Your task to perform on an android device: Show the shopping cart on ebay.com. Search for razer naga on ebay.com, select the first entry, add it to the cart, then select checkout. Image 0: 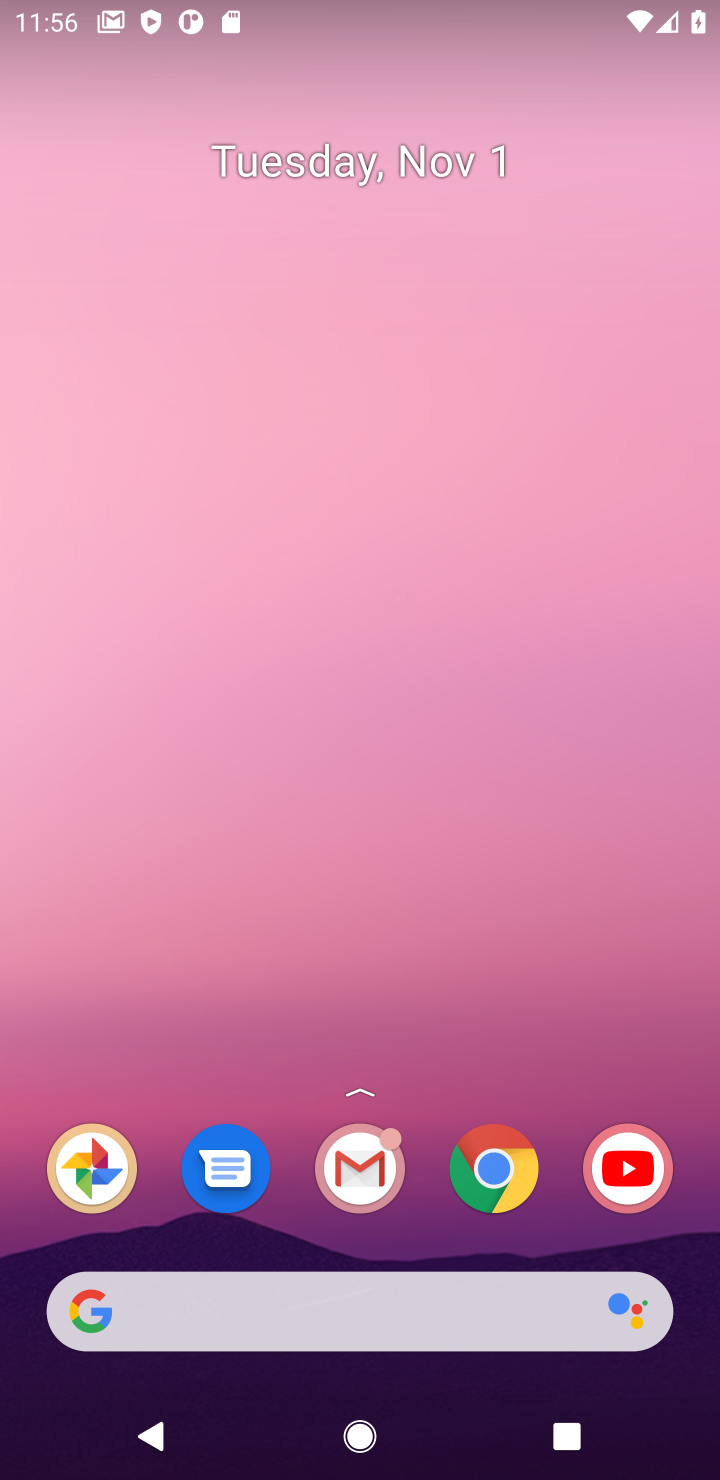
Step 0: click (466, 1159)
Your task to perform on an android device: Show the shopping cart on ebay.com. Search for razer naga on ebay.com, select the first entry, add it to the cart, then select checkout. Image 1: 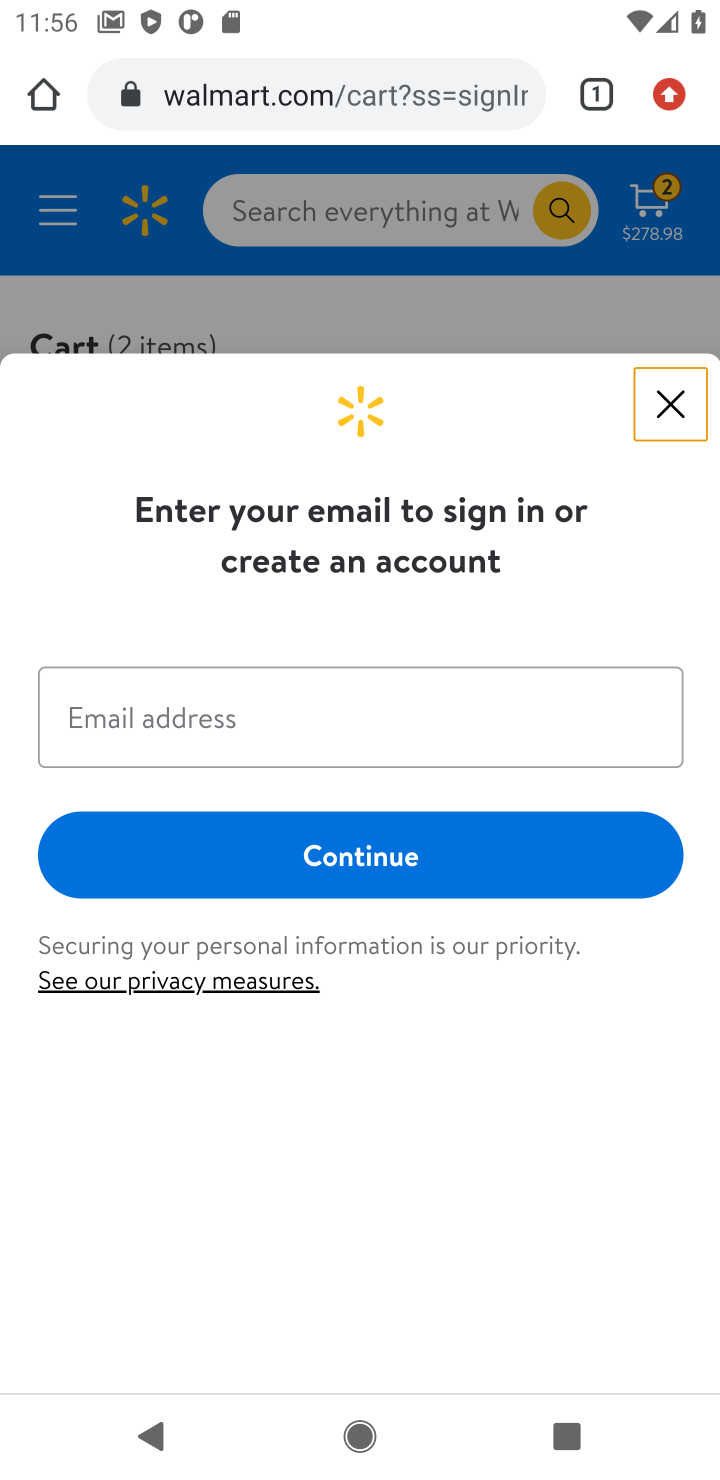
Step 1: click (311, 77)
Your task to perform on an android device: Show the shopping cart on ebay.com. Search for razer naga on ebay.com, select the first entry, add it to the cart, then select checkout. Image 2: 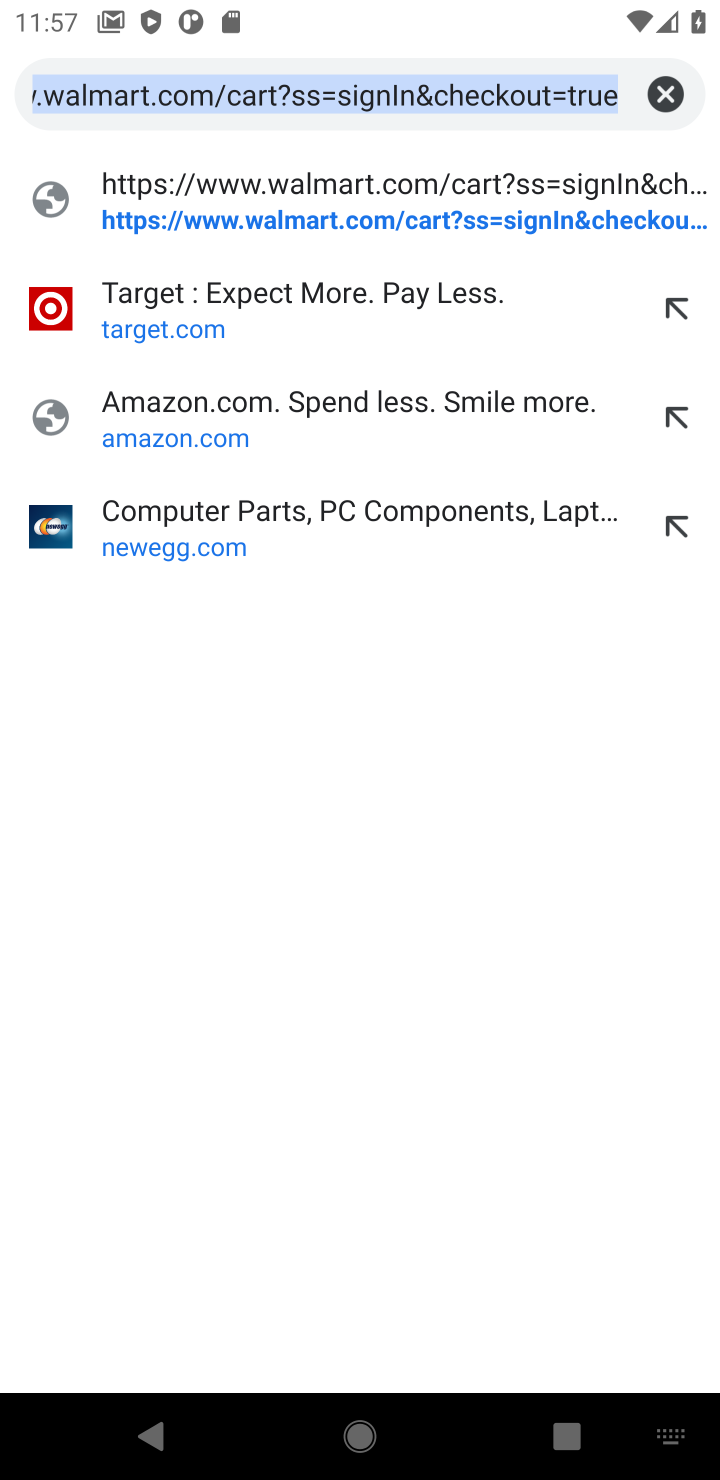
Step 2: click (682, 98)
Your task to perform on an android device: Show the shopping cart on ebay.com. Search for razer naga on ebay.com, select the first entry, add it to the cart, then select checkout. Image 3: 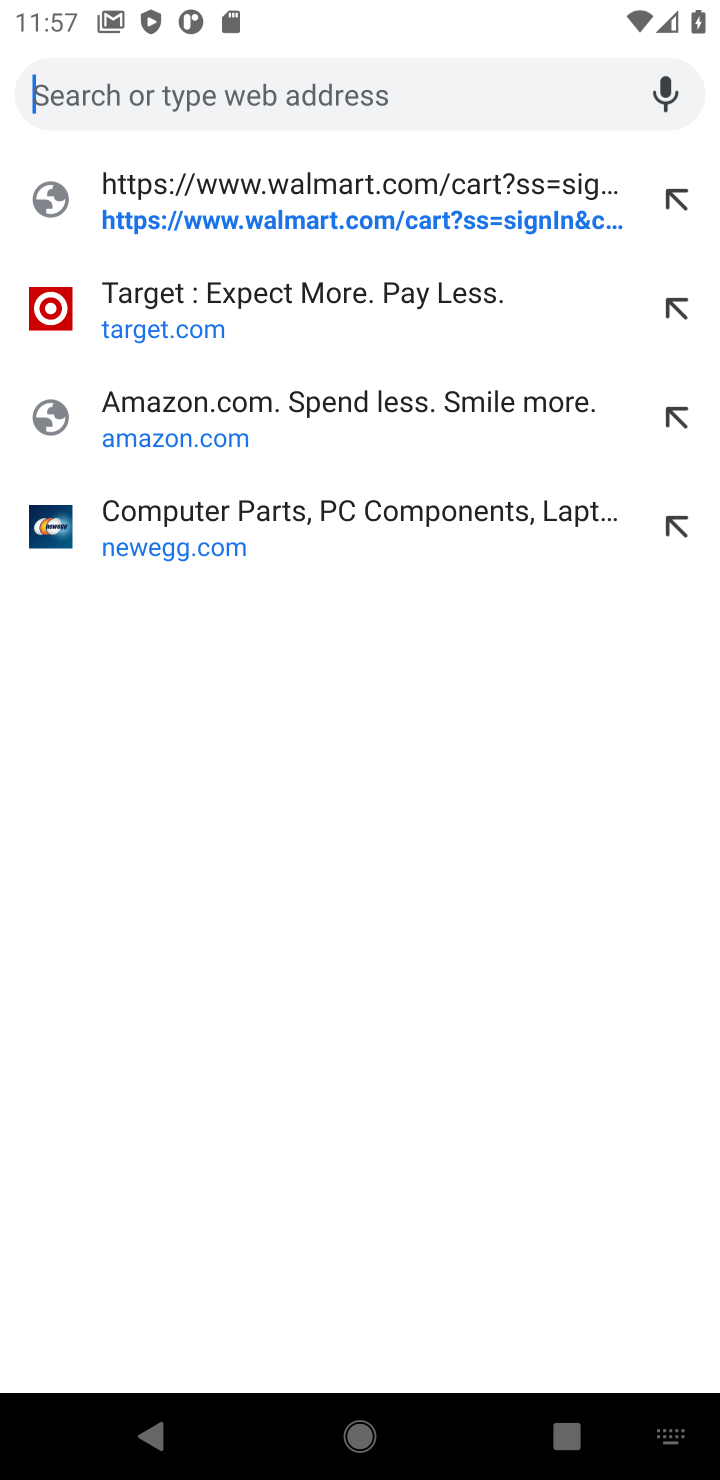
Step 3: press enter
Your task to perform on an android device: Show the shopping cart on ebay.com. Search for razer naga on ebay.com, select the first entry, add it to the cart, then select checkout. Image 4: 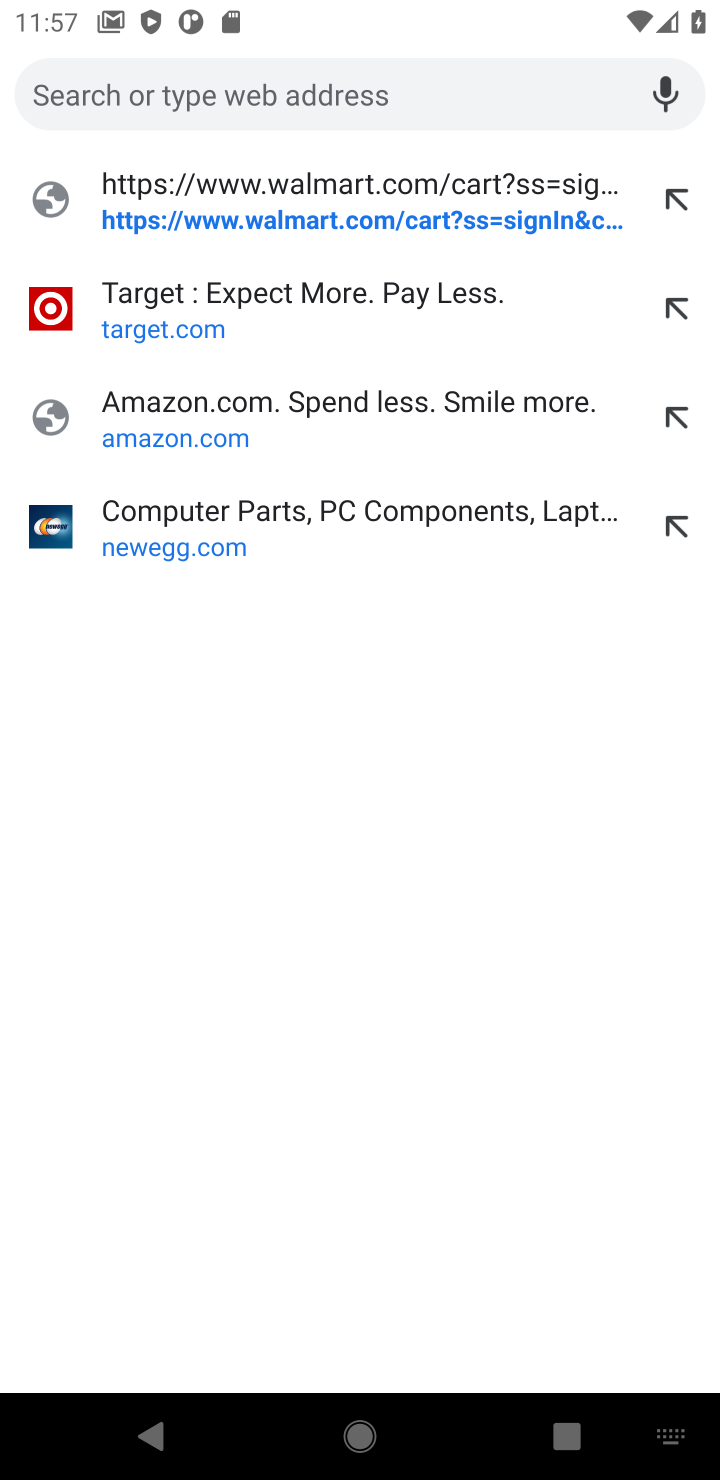
Step 4: type "ebay.com"
Your task to perform on an android device: Show the shopping cart on ebay.com. Search for razer naga on ebay.com, select the first entry, add it to the cart, then select checkout. Image 5: 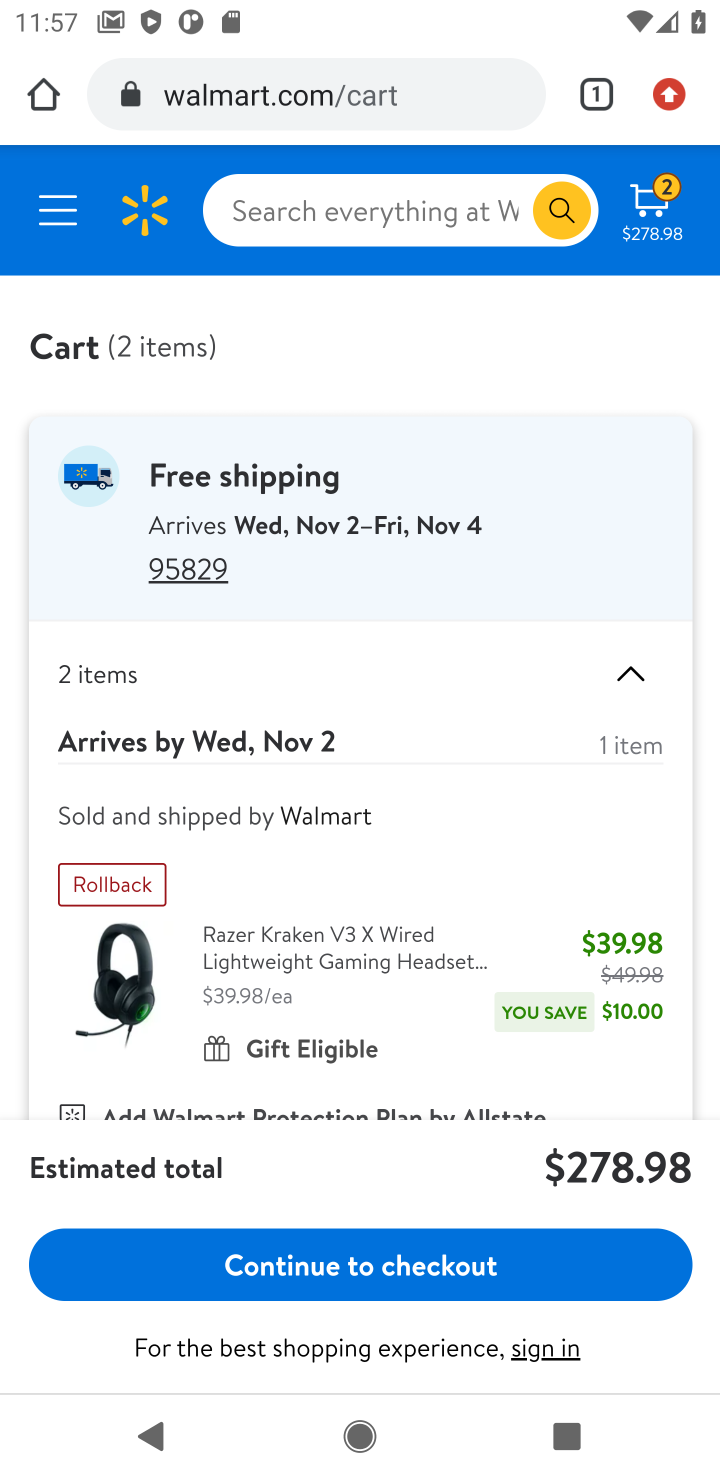
Step 5: click (416, 91)
Your task to perform on an android device: Show the shopping cart on ebay.com. Search for razer naga on ebay.com, select the first entry, add it to the cart, then select checkout. Image 6: 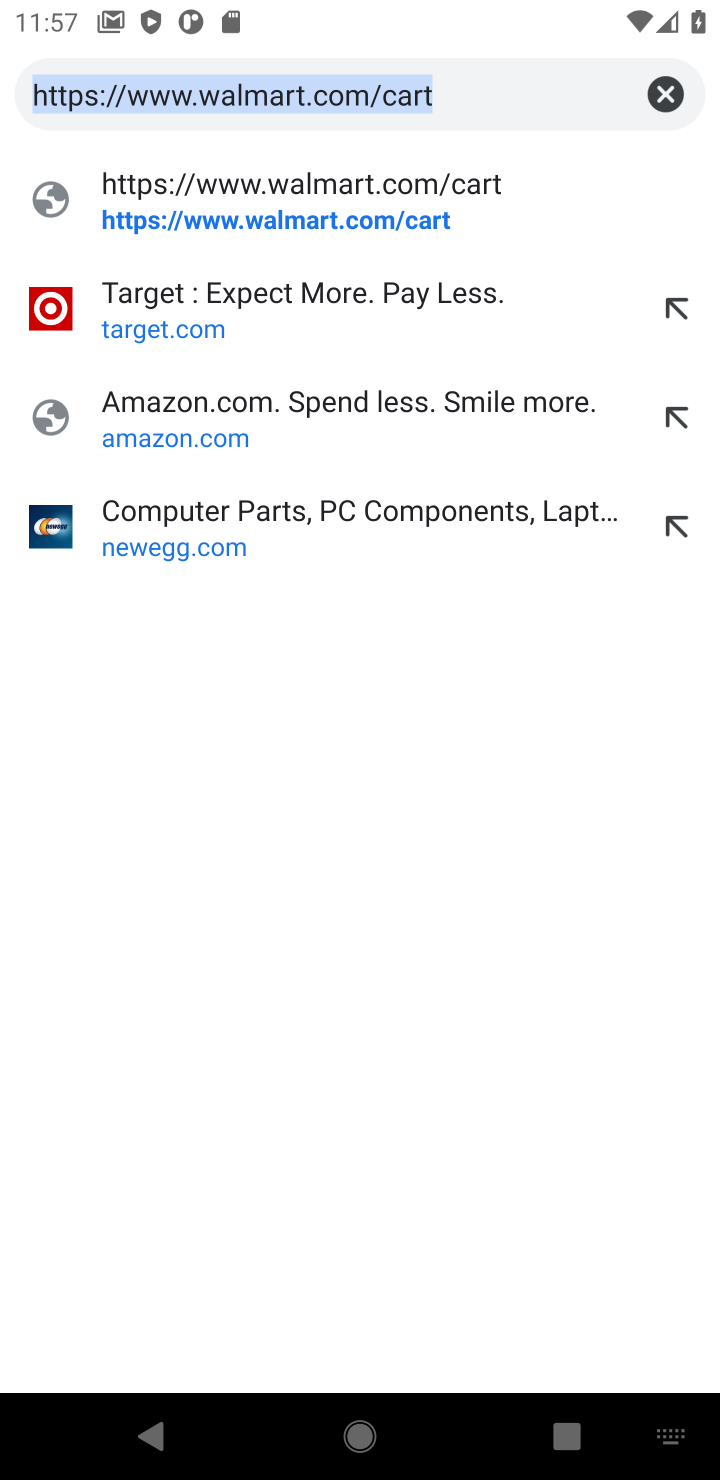
Step 6: click (664, 91)
Your task to perform on an android device: Show the shopping cart on ebay.com. Search for razer naga on ebay.com, select the first entry, add it to the cart, then select checkout. Image 7: 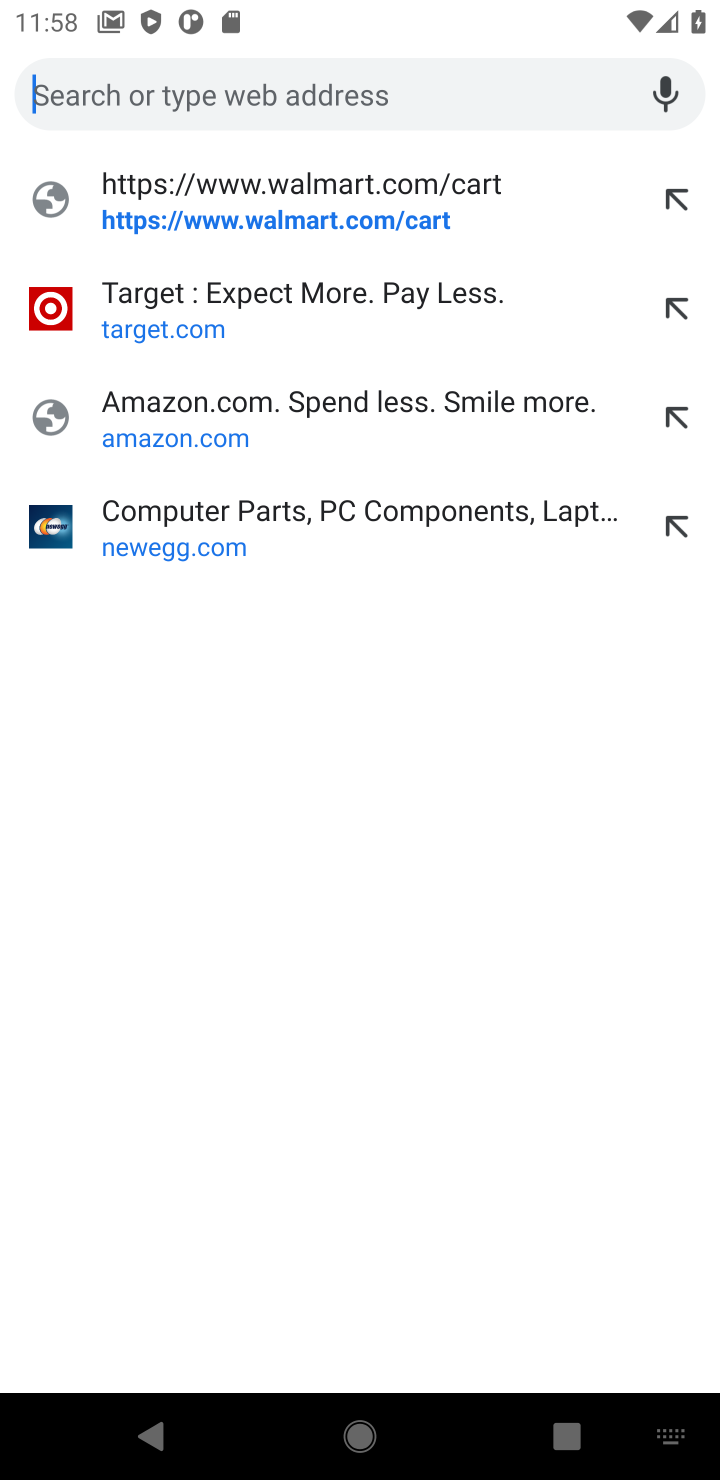
Step 7: press enter
Your task to perform on an android device: Show the shopping cart on ebay.com. Search for razer naga on ebay.com, select the first entry, add it to the cart, then select checkout. Image 8: 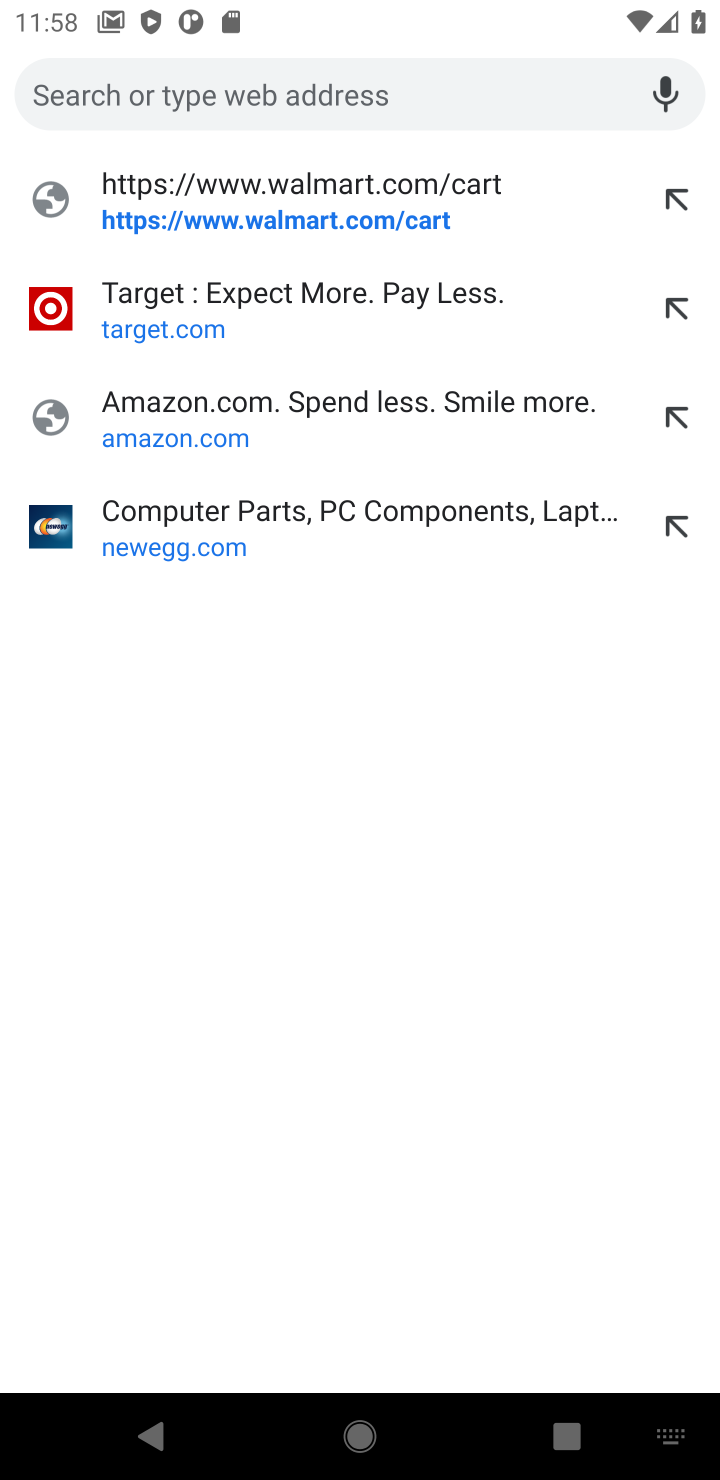
Step 8: type "ebay.com"
Your task to perform on an android device: Show the shopping cart on ebay.com. Search for razer naga on ebay.com, select the first entry, add it to the cart, then select checkout. Image 9: 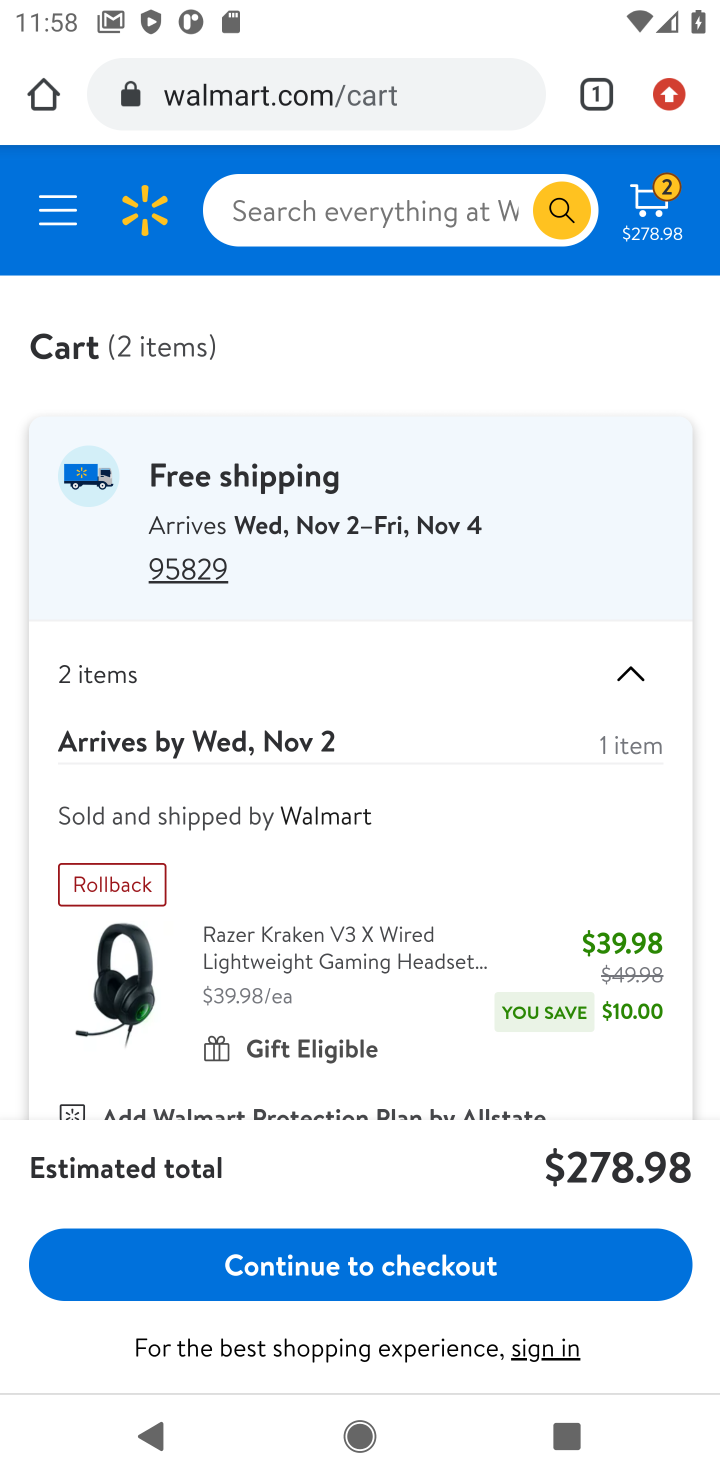
Step 9: click (235, 85)
Your task to perform on an android device: Show the shopping cart on ebay.com. Search for razer naga on ebay.com, select the first entry, add it to the cart, then select checkout. Image 10: 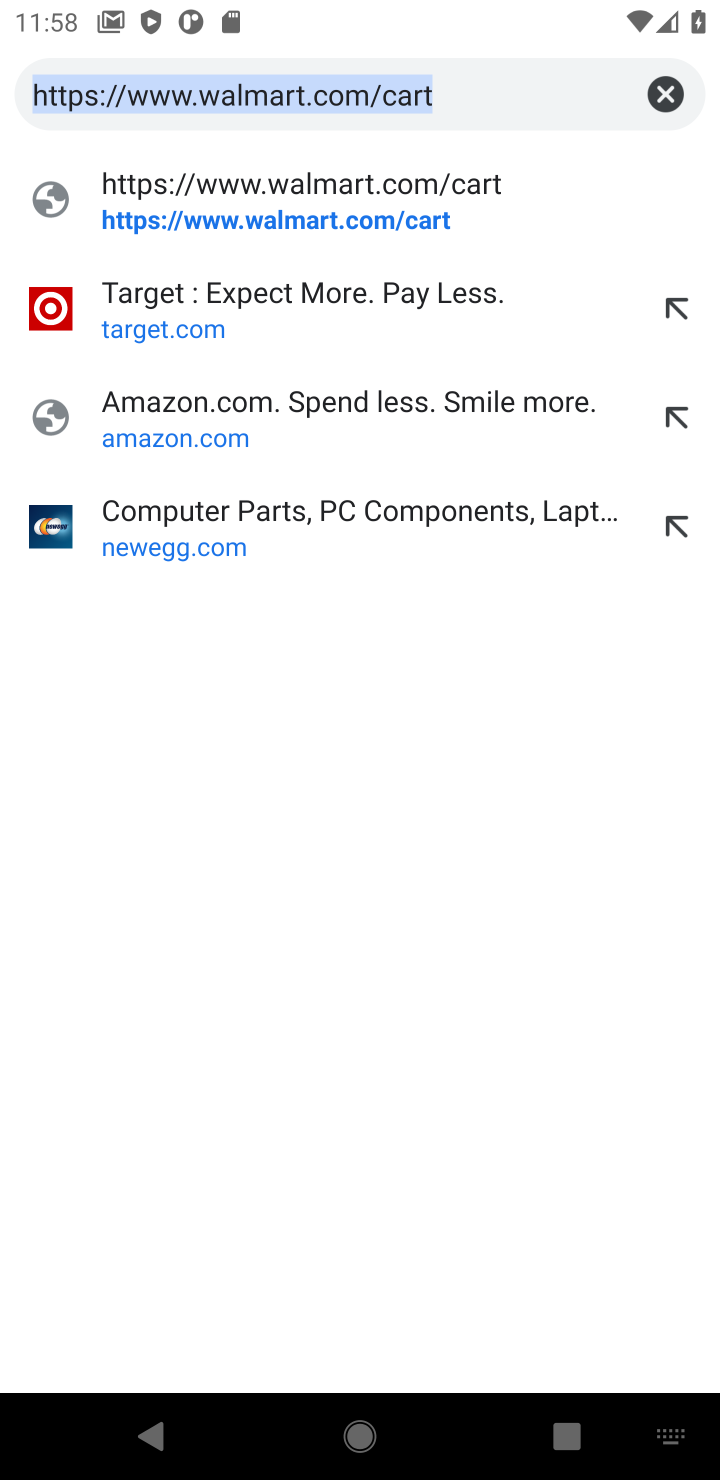
Step 10: click (672, 79)
Your task to perform on an android device: Show the shopping cart on ebay.com. Search for razer naga on ebay.com, select the first entry, add it to the cart, then select checkout. Image 11: 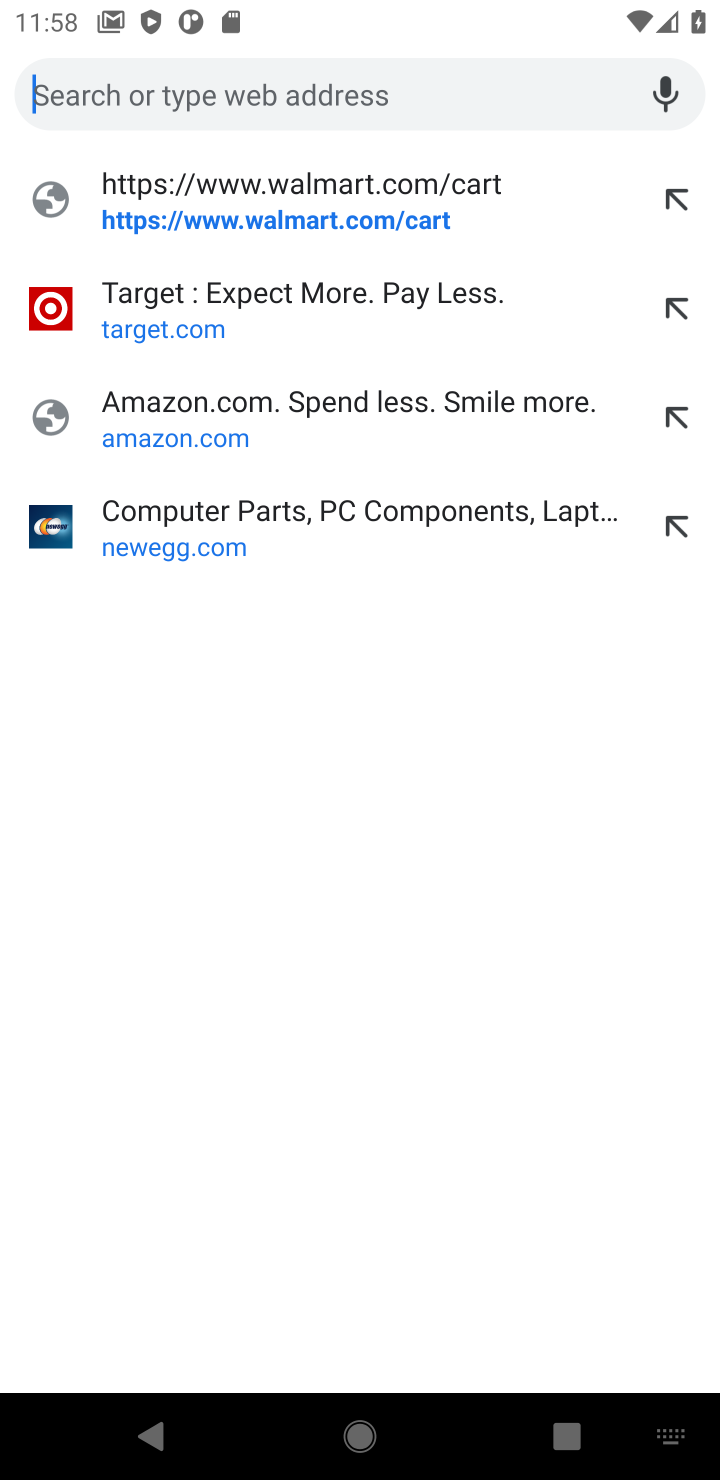
Step 11: press enter
Your task to perform on an android device: Show the shopping cart on ebay.com. Search for razer naga on ebay.com, select the first entry, add it to the cart, then select checkout. Image 12: 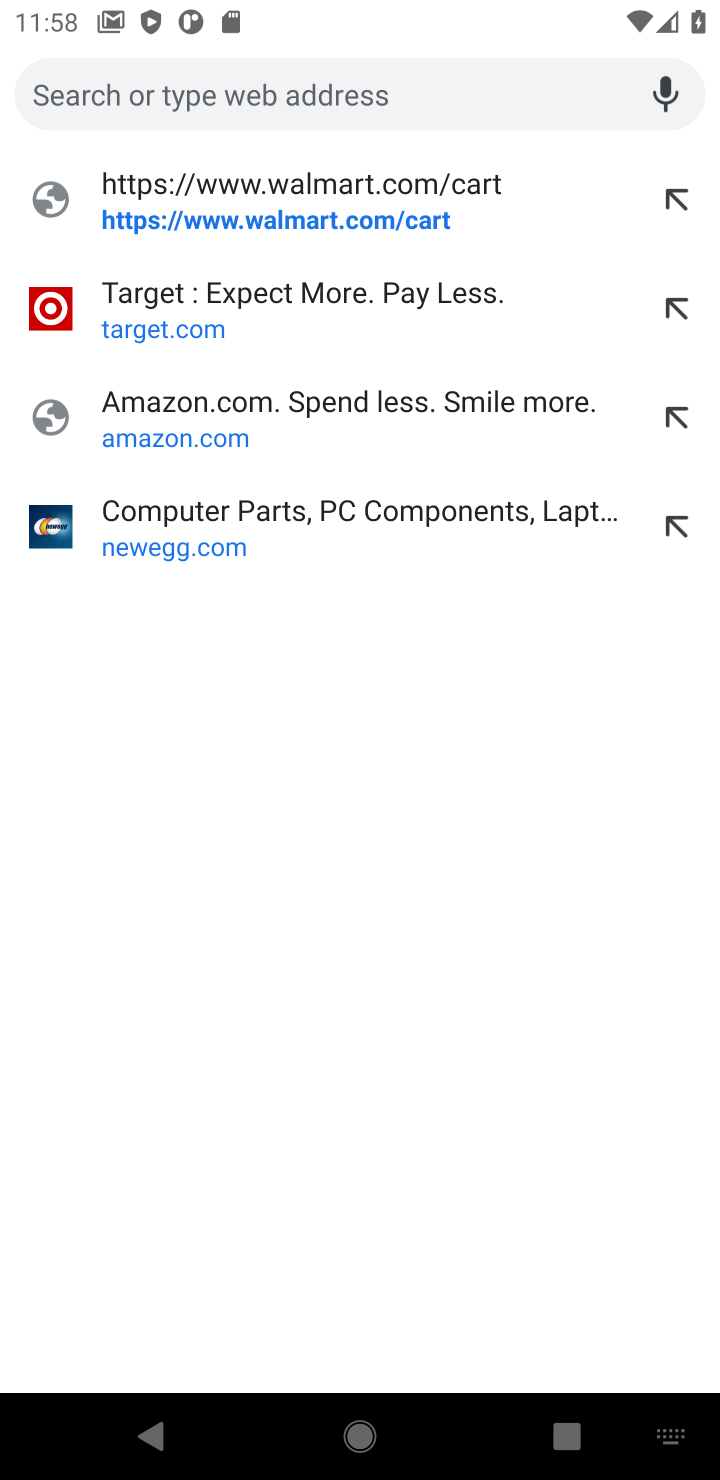
Step 12: type "ebay.com"
Your task to perform on an android device: Show the shopping cart on ebay.com. Search for razer naga on ebay.com, select the first entry, add it to the cart, then select checkout. Image 13: 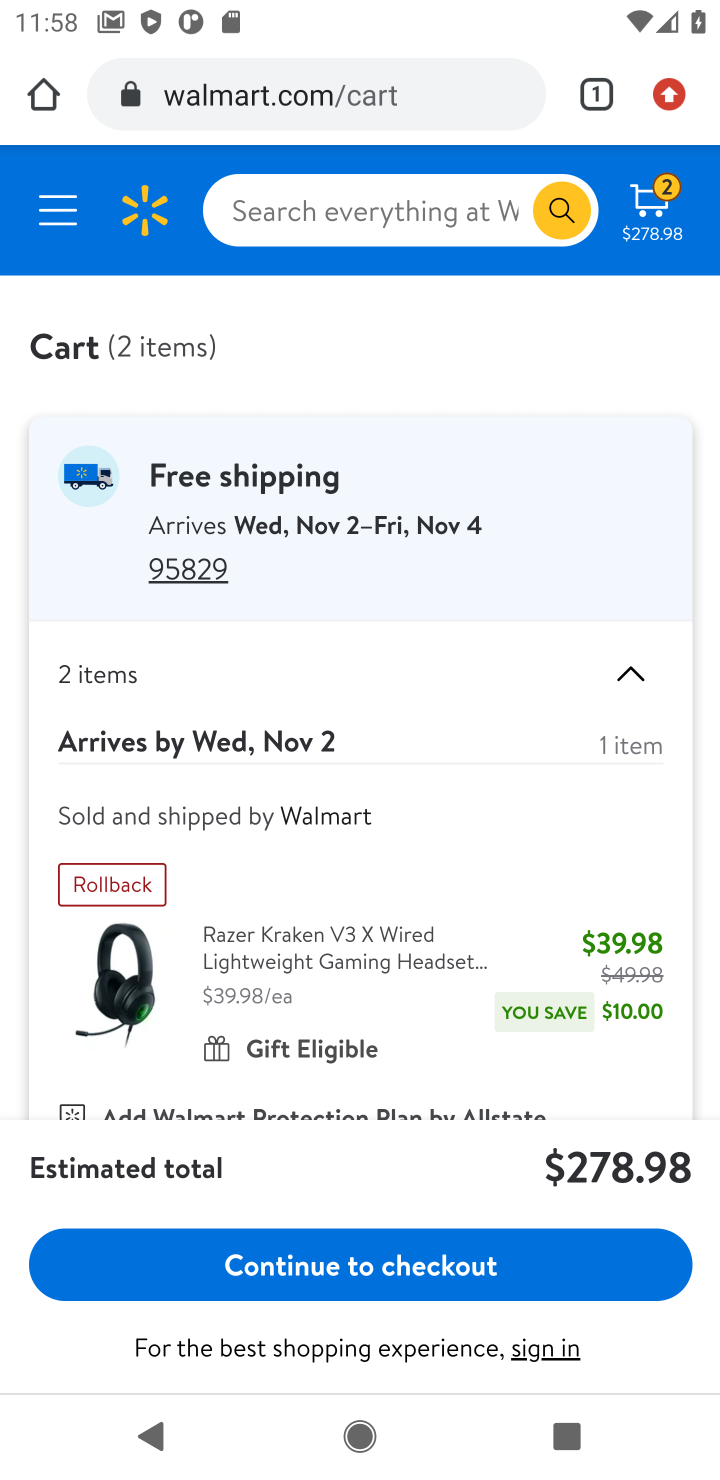
Step 13: click (44, 104)
Your task to perform on an android device: Show the shopping cart on ebay.com. Search for razer naga on ebay.com, select the first entry, add it to the cart, then select checkout. Image 14: 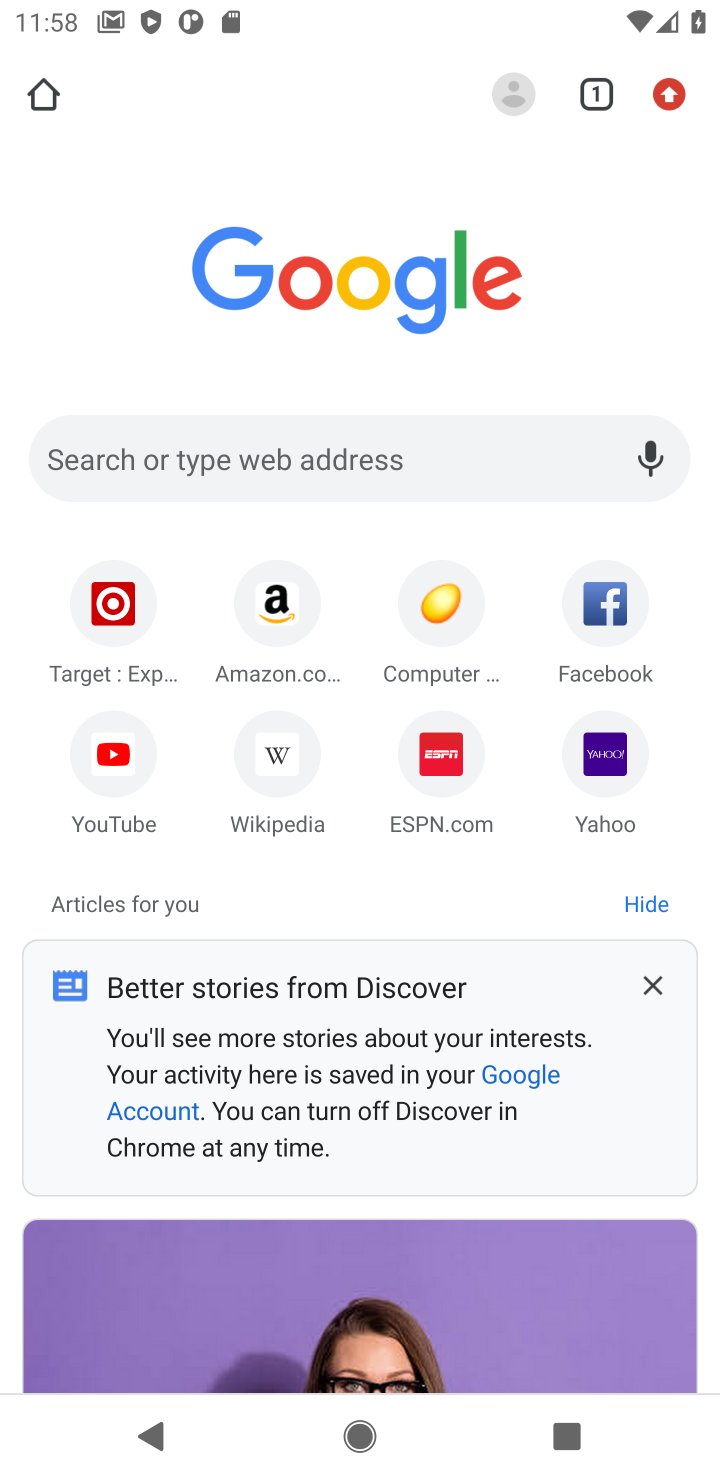
Step 14: click (416, 451)
Your task to perform on an android device: Show the shopping cart on ebay.com. Search for razer naga on ebay.com, select the first entry, add it to the cart, then select checkout. Image 15: 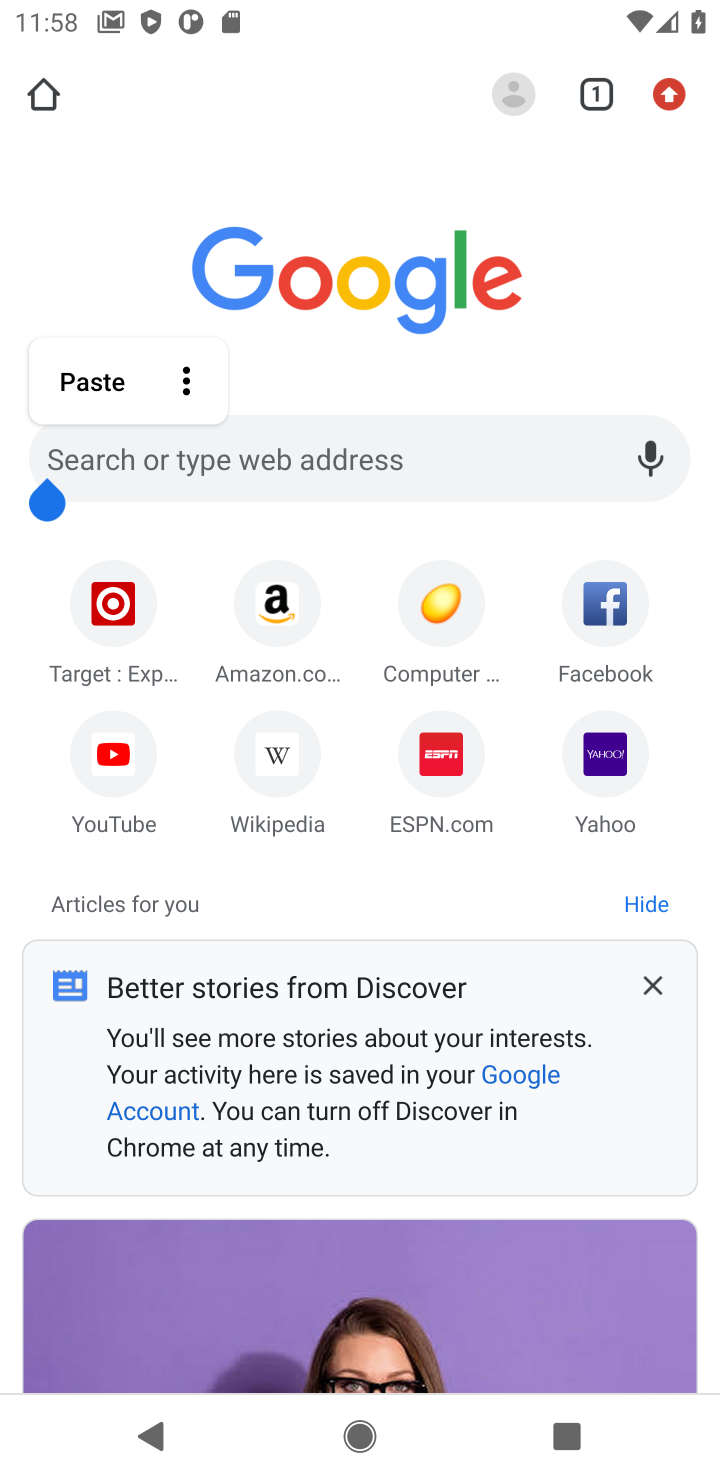
Step 15: press enter
Your task to perform on an android device: Show the shopping cart on ebay.com. Search for razer naga on ebay.com, select the first entry, add it to the cart, then select checkout. Image 16: 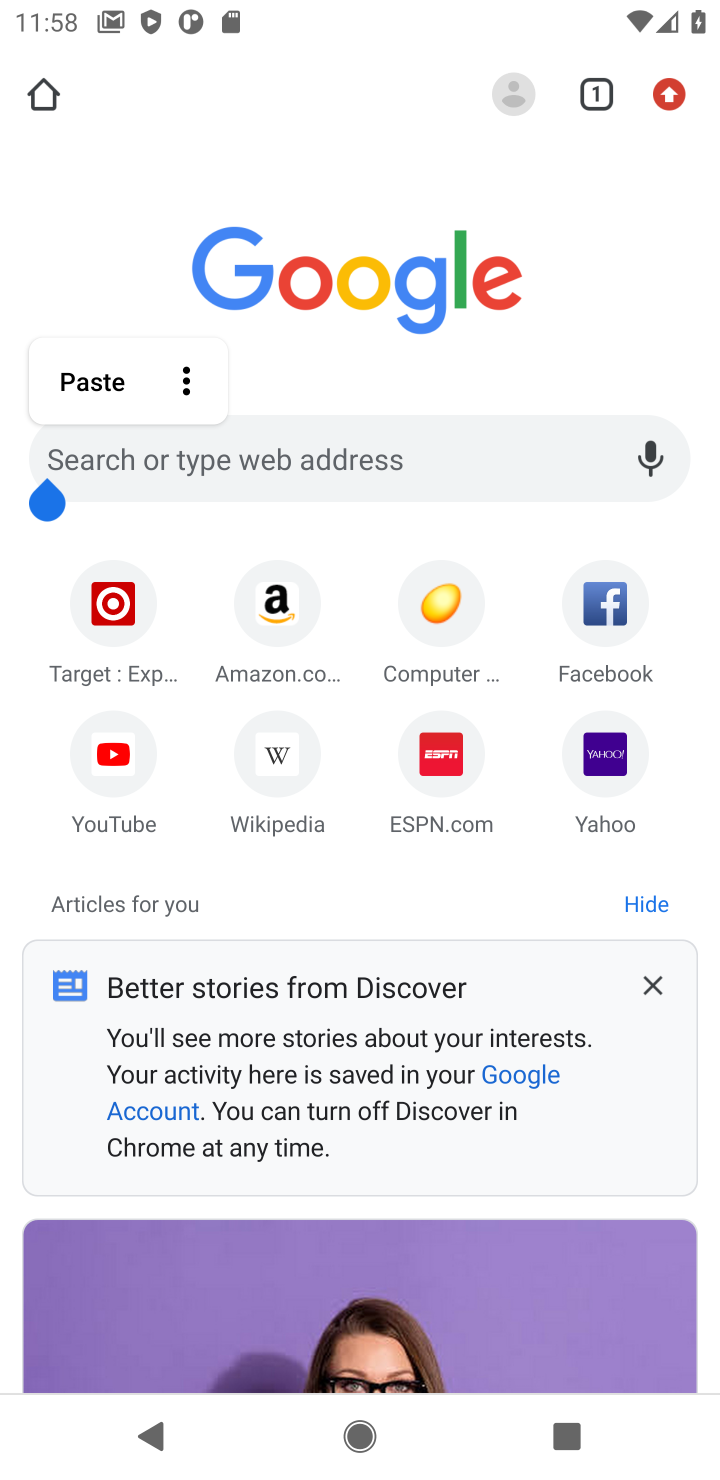
Step 16: type "ebay.com"
Your task to perform on an android device: Show the shopping cart on ebay.com. Search for razer naga on ebay.com, select the first entry, add it to the cart, then select checkout. Image 17: 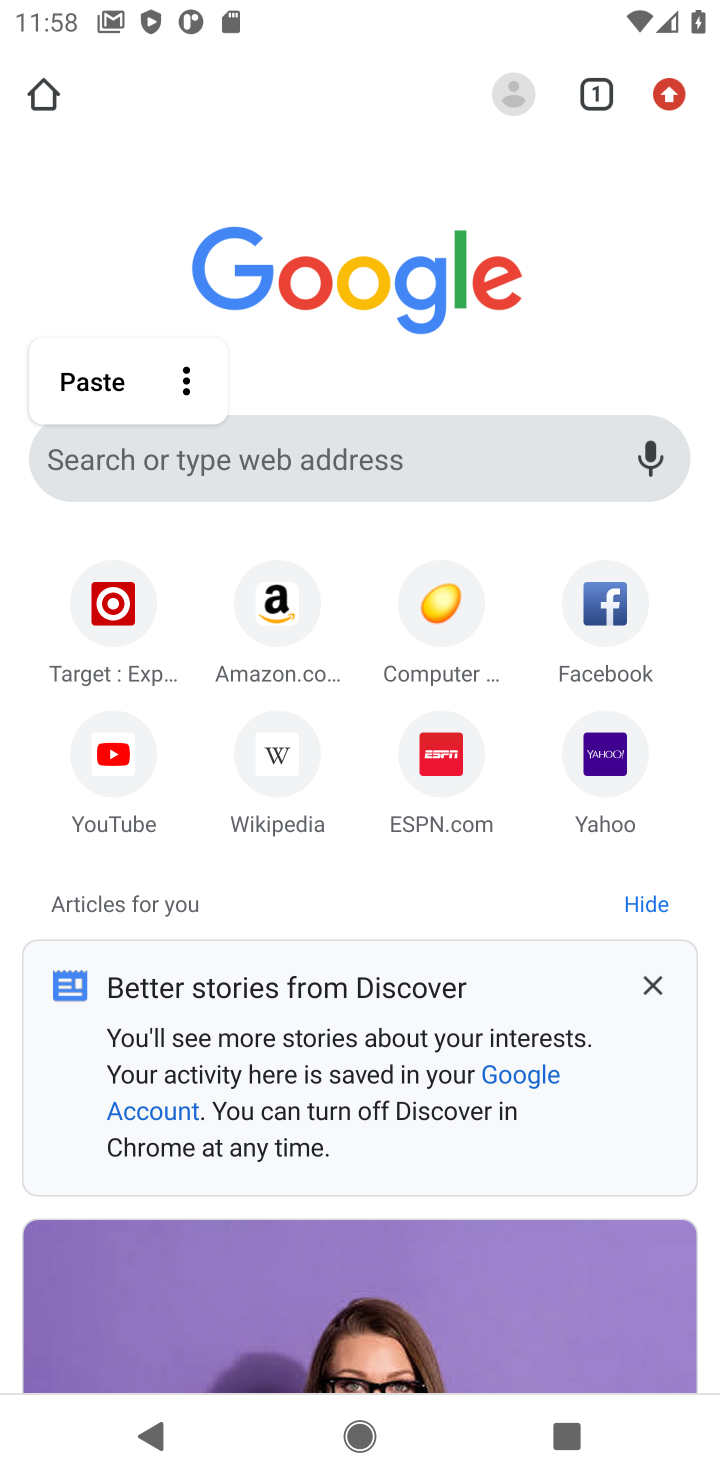
Step 17: click (463, 453)
Your task to perform on an android device: Show the shopping cart on ebay.com. Search for razer naga on ebay.com, select the first entry, add it to the cart, then select checkout. Image 18: 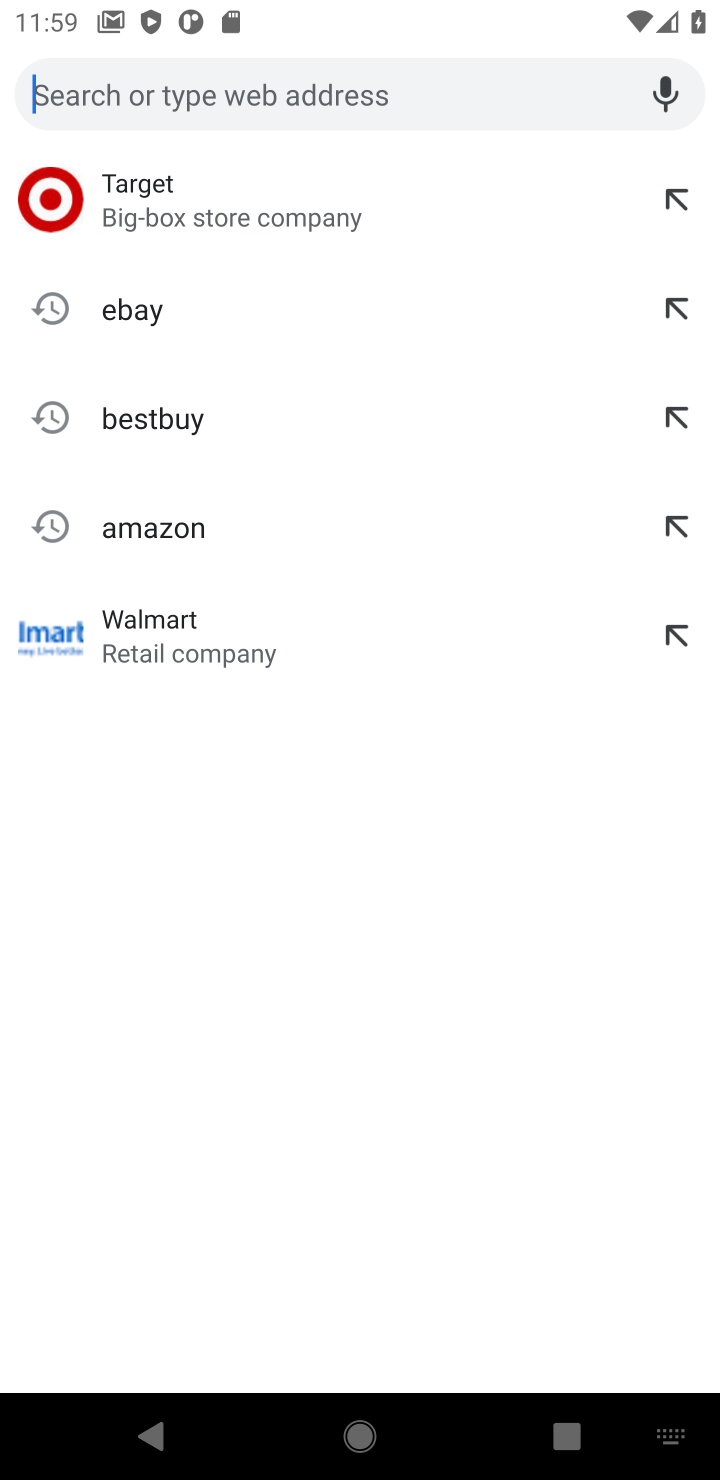
Step 18: type "ebay.com"
Your task to perform on an android device: Show the shopping cart on ebay.com. Search for razer naga on ebay.com, select the first entry, add it to the cart, then select checkout. Image 19: 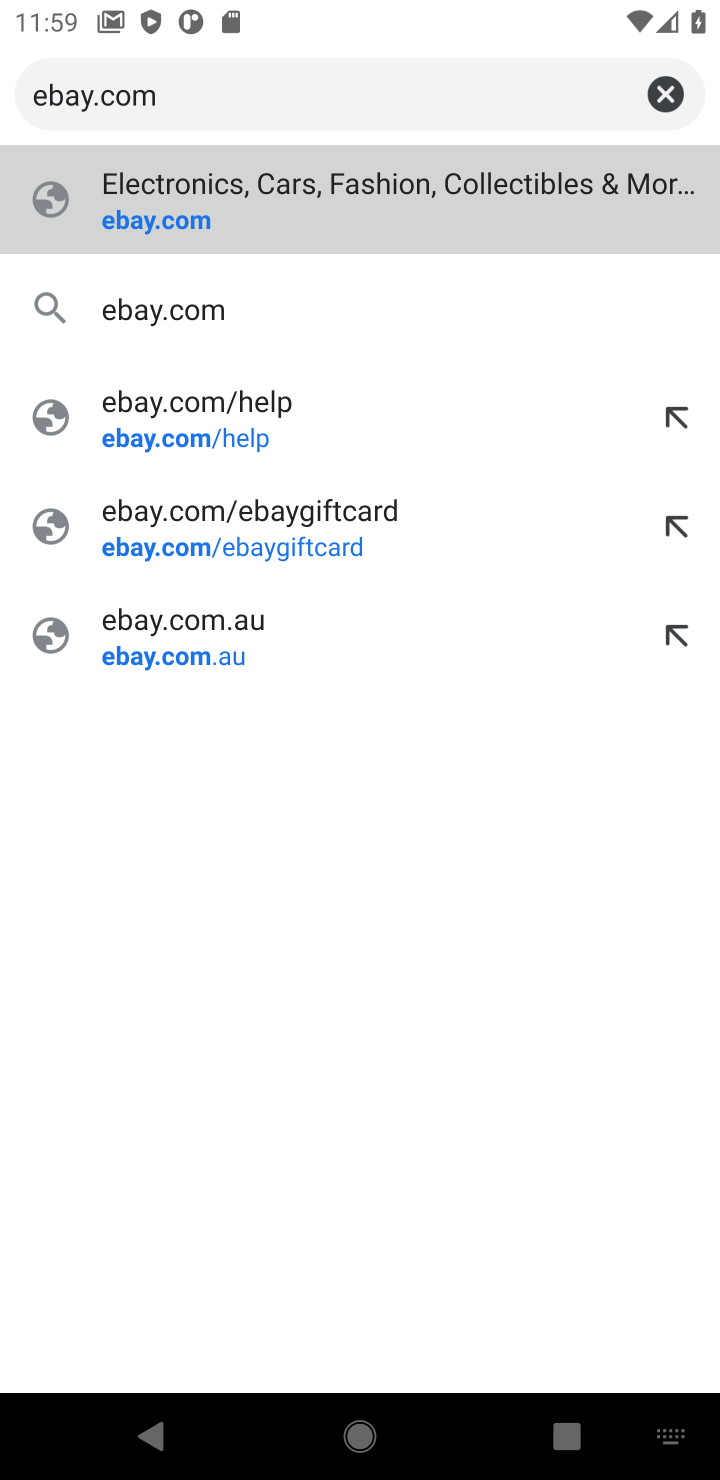
Step 19: press enter
Your task to perform on an android device: Show the shopping cart on ebay.com. Search for razer naga on ebay.com, select the first entry, add it to the cart, then select checkout. Image 20: 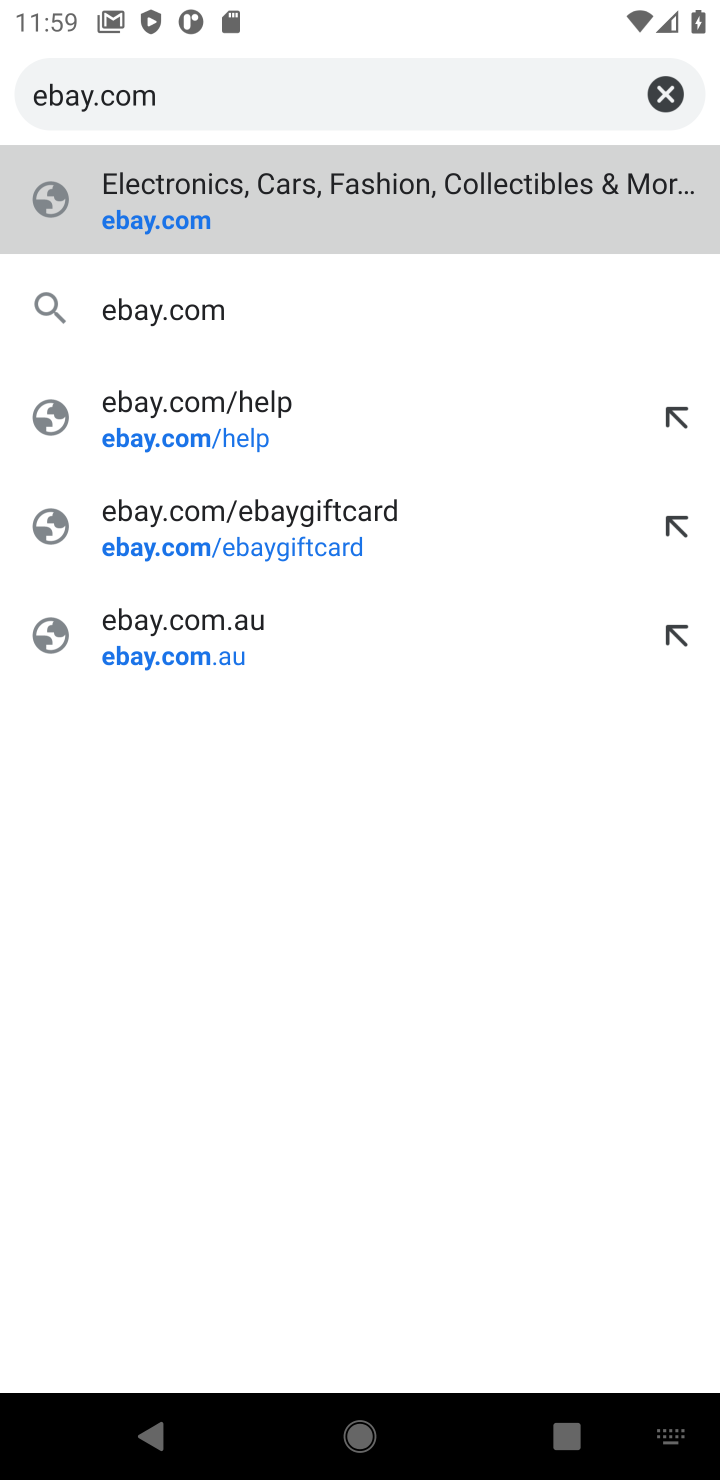
Step 20: click (107, 310)
Your task to perform on an android device: Show the shopping cart on ebay.com. Search for razer naga on ebay.com, select the first entry, add it to the cart, then select checkout. Image 21: 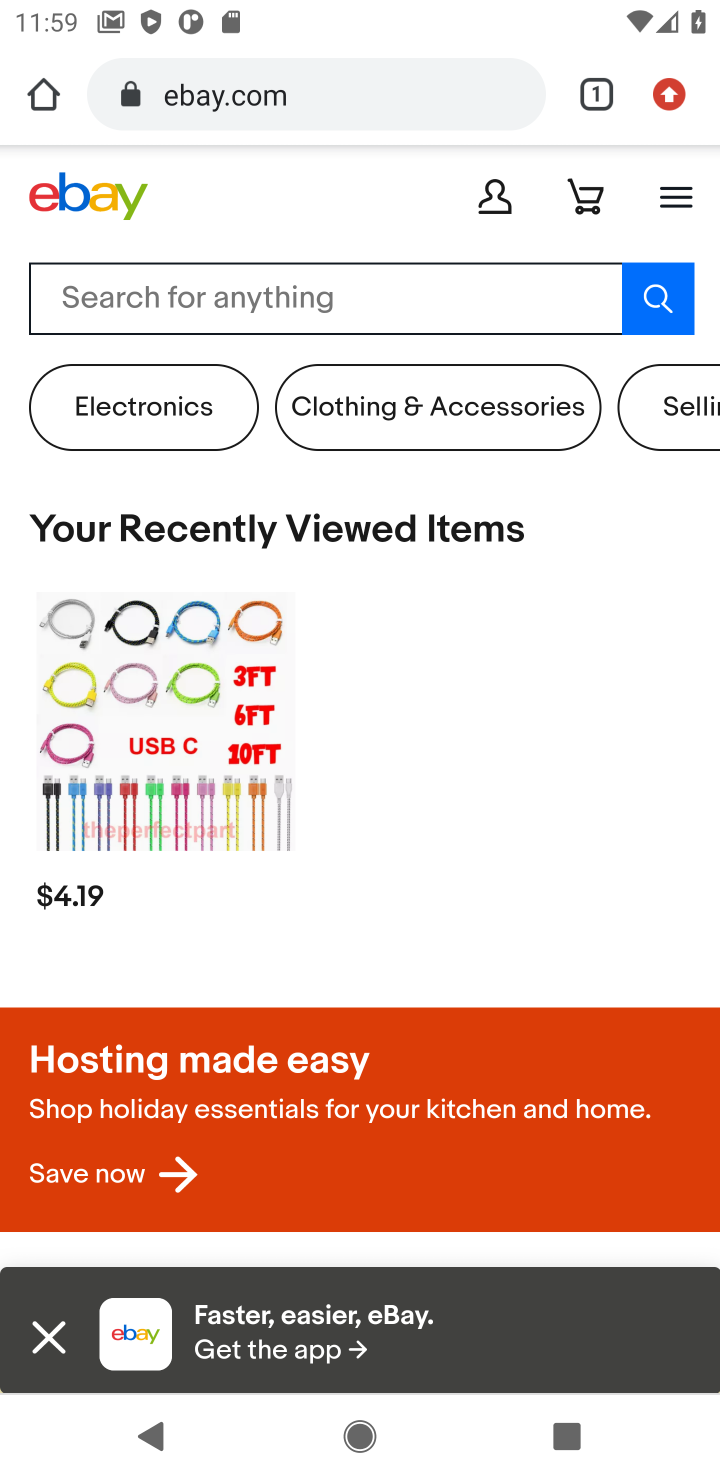
Step 21: click (271, 298)
Your task to perform on an android device: Show the shopping cart on ebay.com. Search for razer naga on ebay.com, select the first entry, add it to the cart, then select checkout. Image 22: 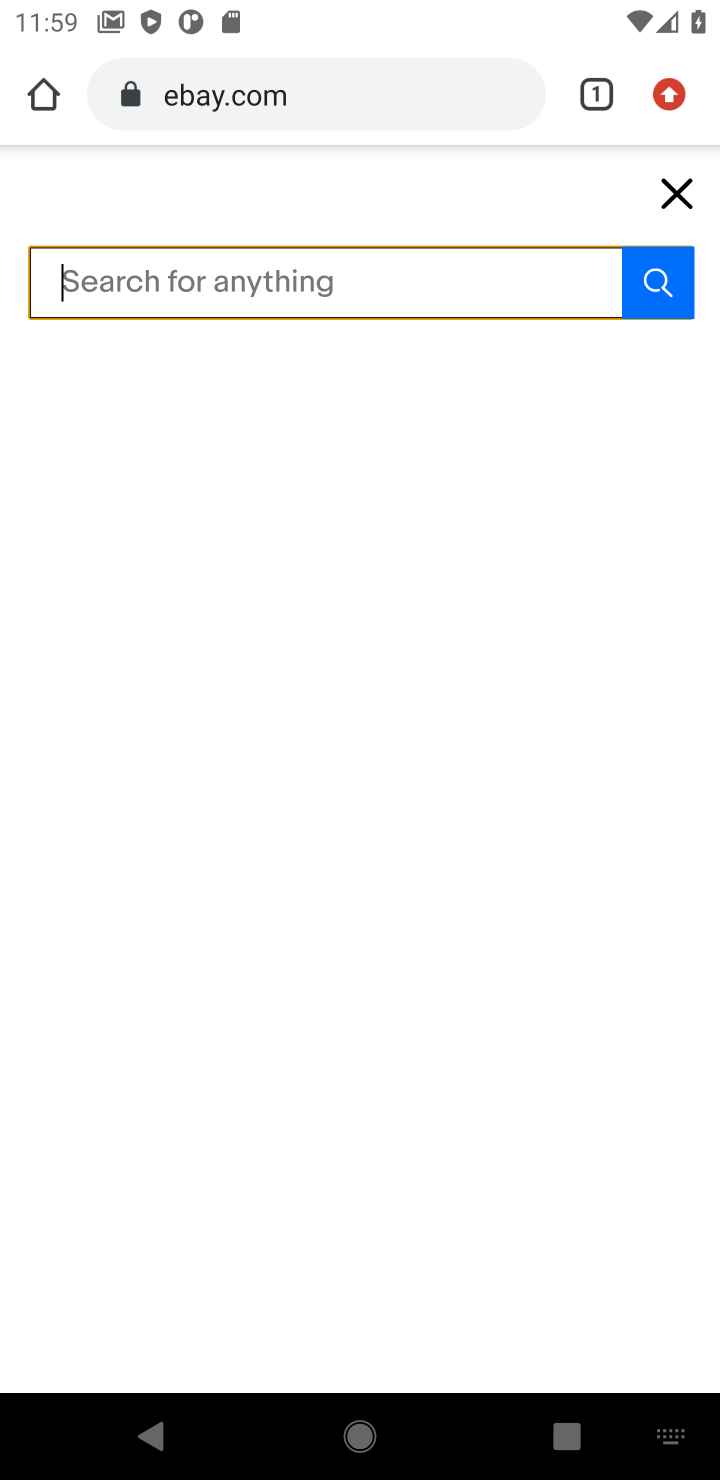
Step 22: press enter
Your task to perform on an android device: Show the shopping cart on ebay.com. Search for razer naga on ebay.com, select the first entry, add it to the cart, then select checkout. Image 23: 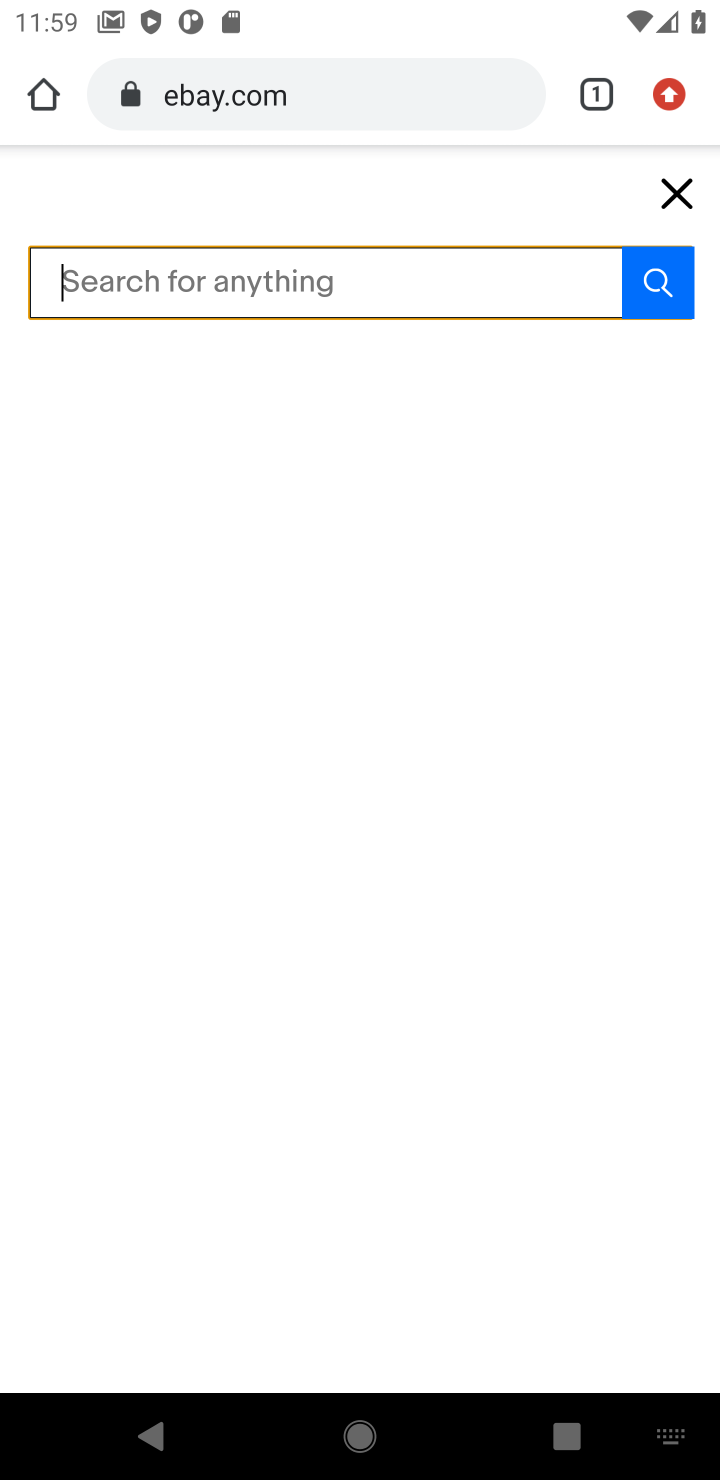
Step 23: type "razer naga"
Your task to perform on an android device: Show the shopping cart on ebay.com. Search for razer naga on ebay.com, select the first entry, add it to the cart, then select checkout. Image 24: 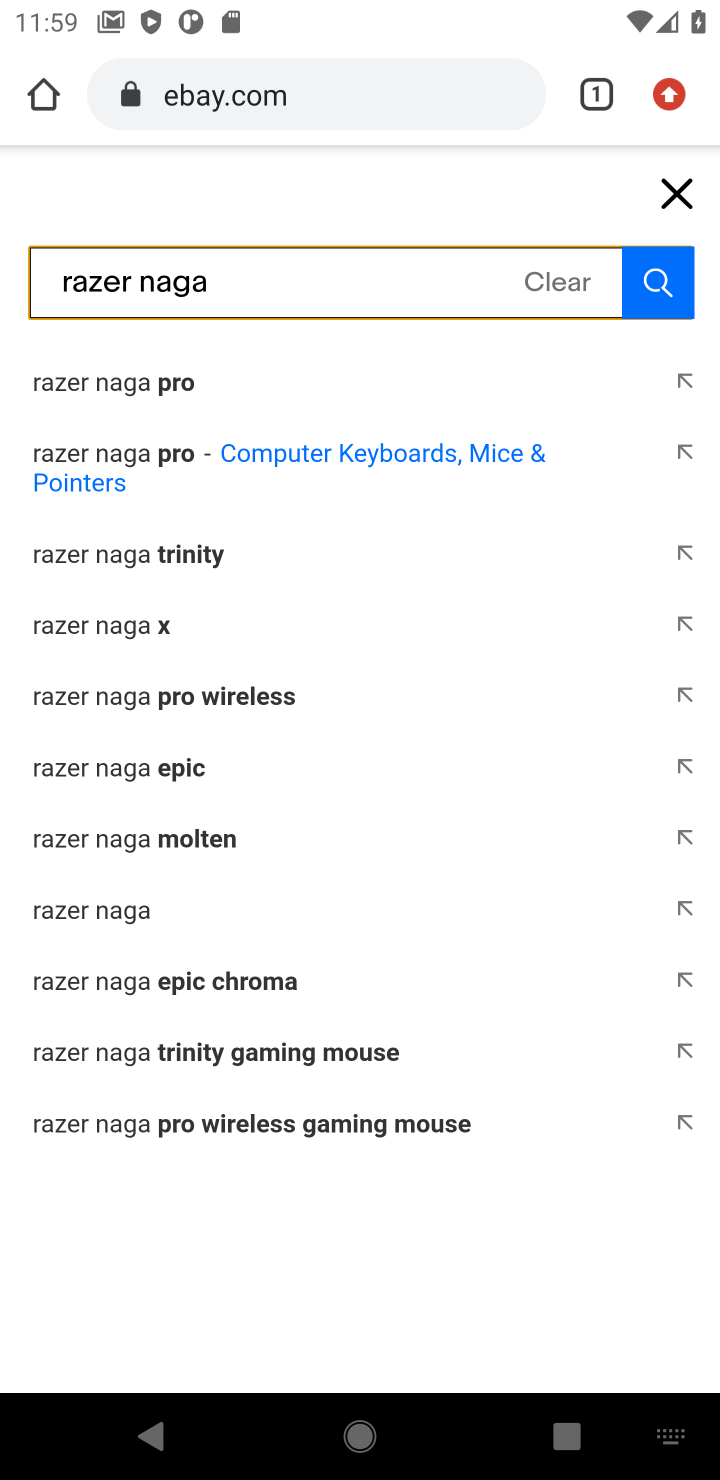
Step 24: click (99, 918)
Your task to perform on an android device: Show the shopping cart on ebay.com. Search for razer naga on ebay.com, select the first entry, add it to the cart, then select checkout. Image 25: 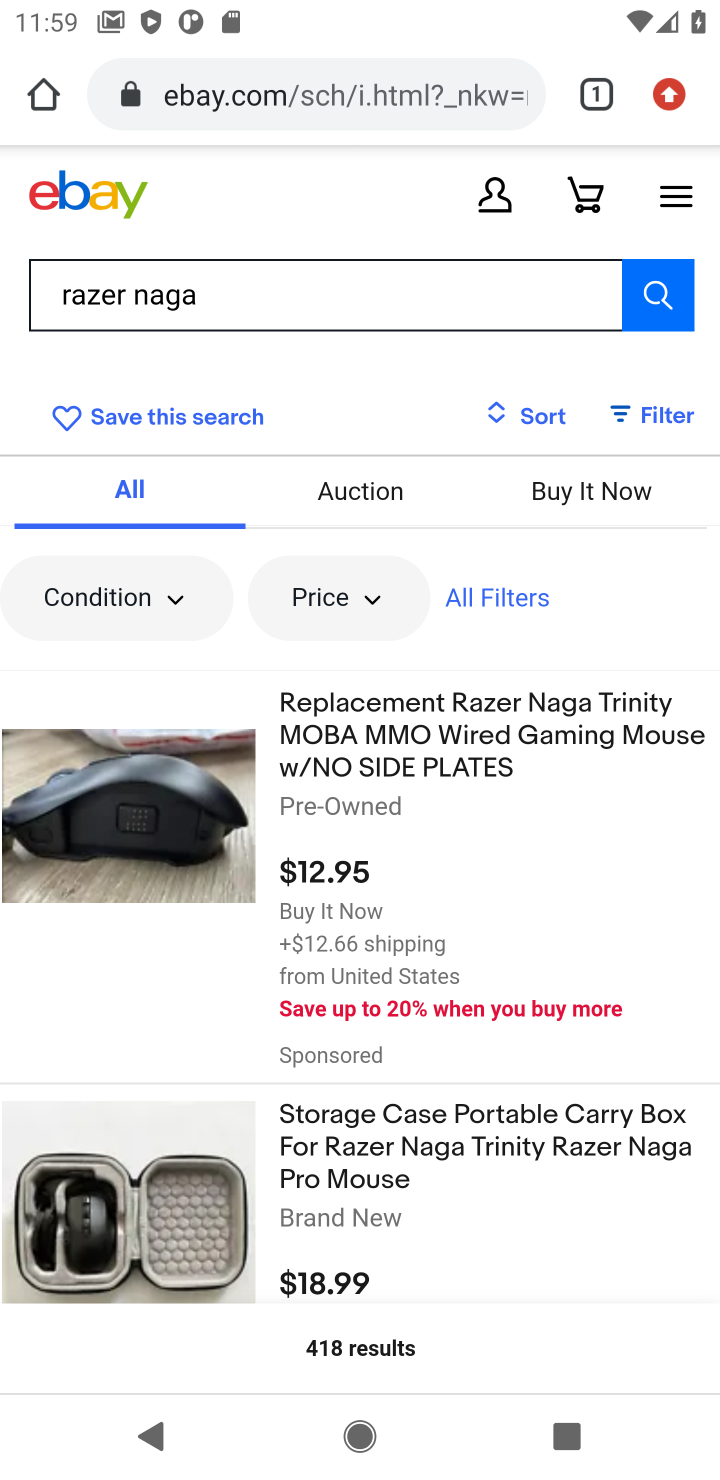
Step 25: click (147, 808)
Your task to perform on an android device: Show the shopping cart on ebay.com. Search for razer naga on ebay.com, select the first entry, add it to the cart, then select checkout. Image 26: 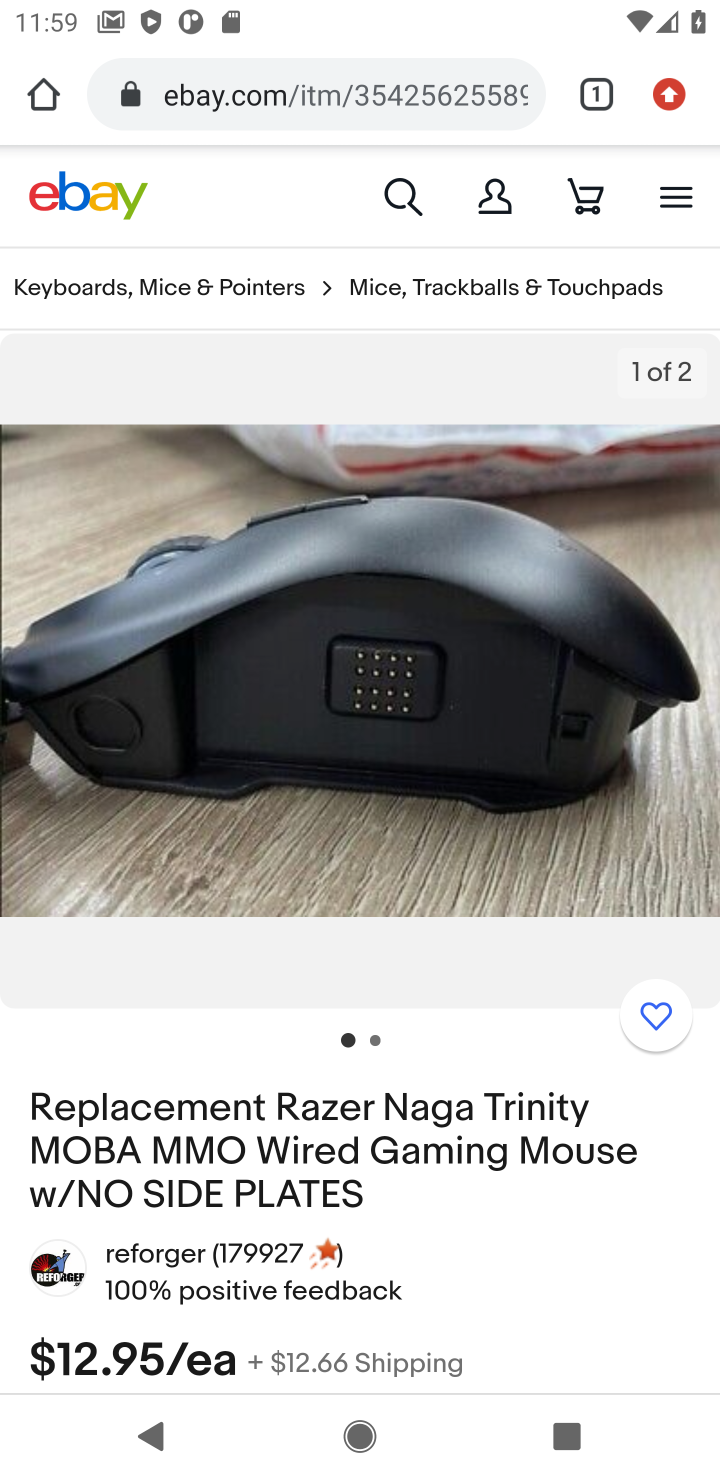
Step 26: drag from (371, 906) to (295, 618)
Your task to perform on an android device: Show the shopping cart on ebay.com. Search for razer naga on ebay.com, select the first entry, add it to the cart, then select checkout. Image 27: 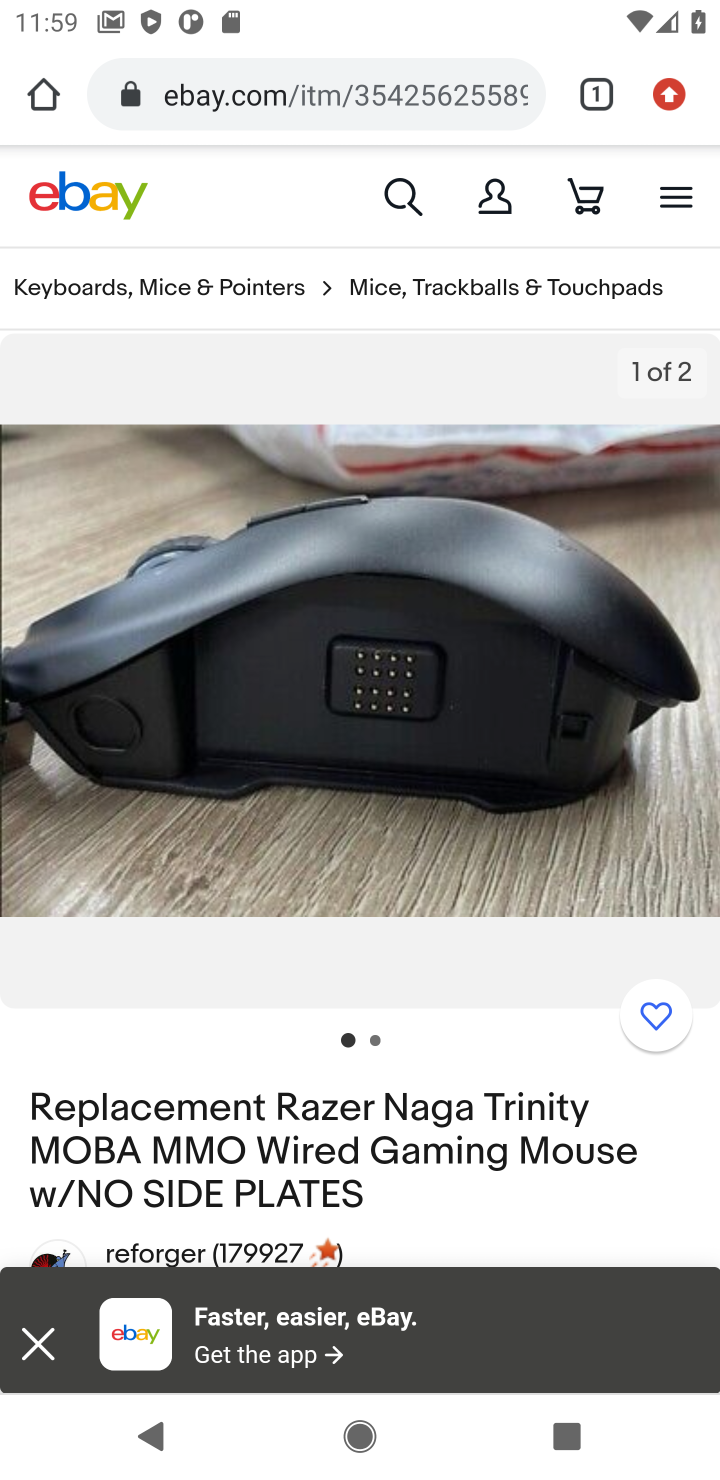
Step 27: drag from (465, 1086) to (333, 632)
Your task to perform on an android device: Show the shopping cart on ebay.com. Search for razer naga on ebay.com, select the first entry, add it to the cart, then select checkout. Image 28: 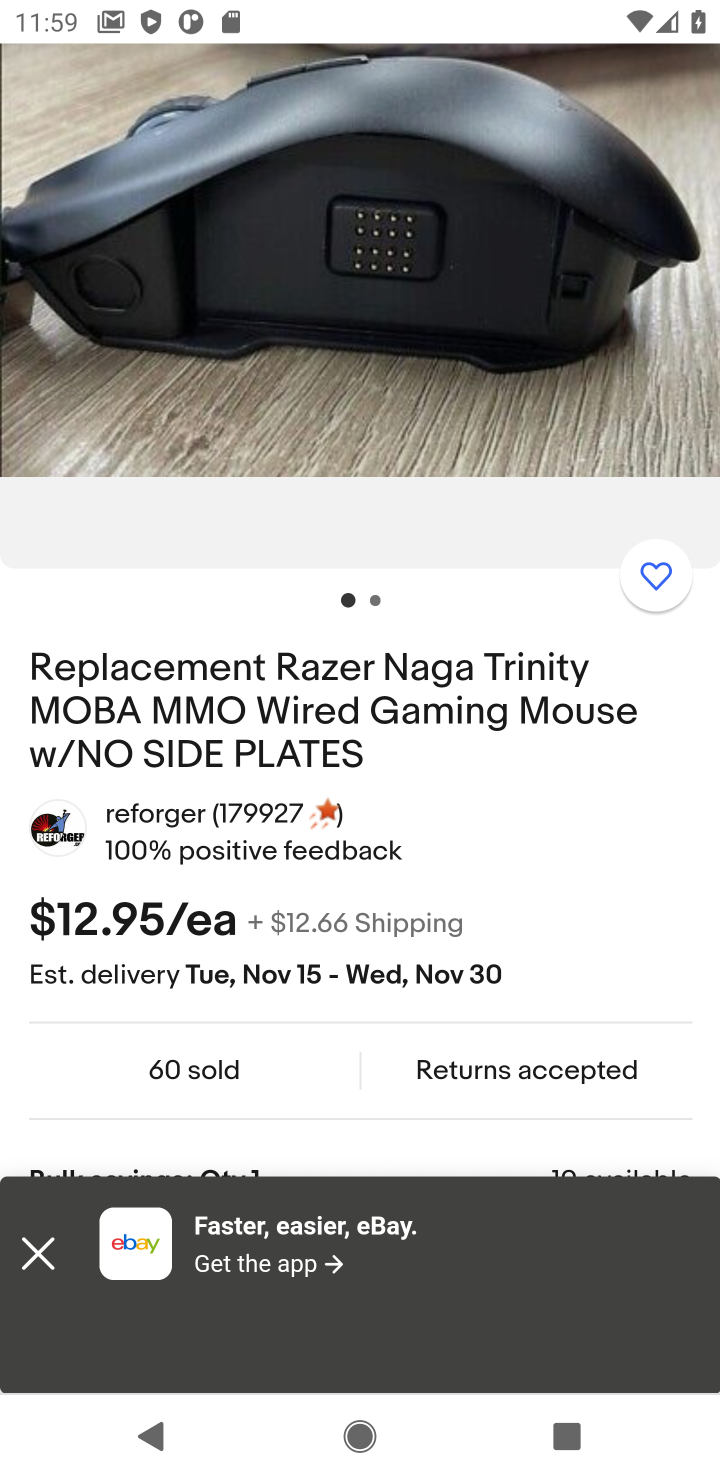
Step 28: drag from (514, 1010) to (412, 636)
Your task to perform on an android device: Show the shopping cart on ebay.com. Search for razer naga on ebay.com, select the first entry, add it to the cart, then select checkout. Image 29: 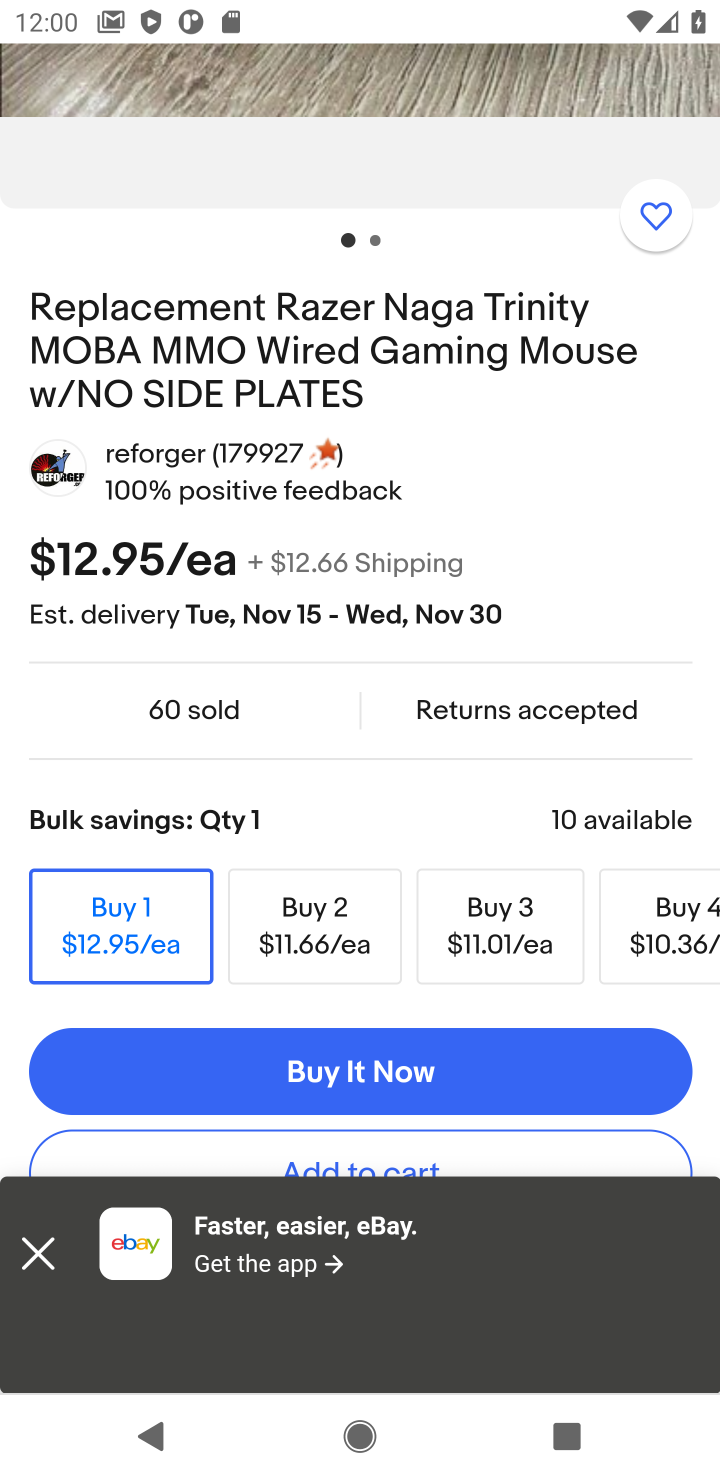
Step 29: drag from (432, 768) to (399, 335)
Your task to perform on an android device: Show the shopping cart on ebay.com. Search for razer naga on ebay.com, select the first entry, add it to the cart, then select checkout. Image 30: 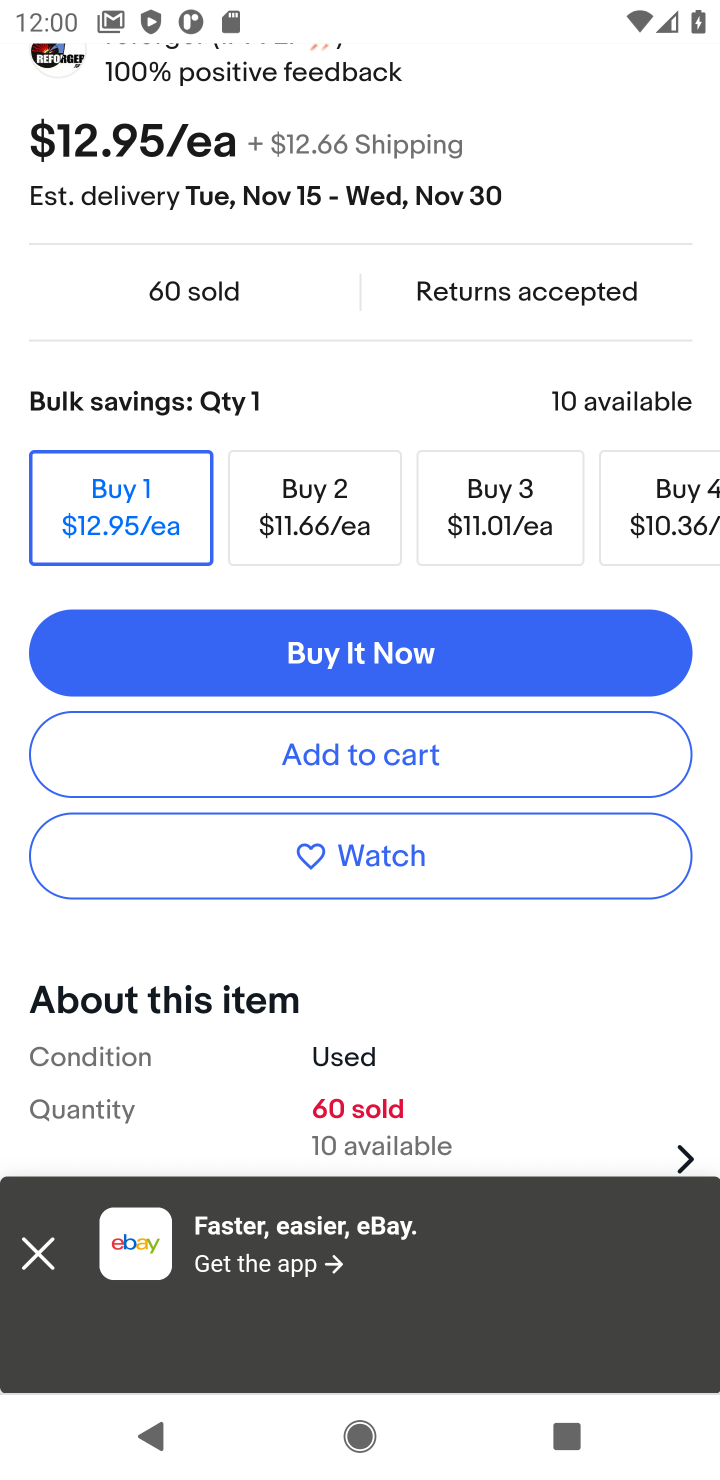
Step 30: click (439, 746)
Your task to perform on an android device: Show the shopping cart on ebay.com. Search for razer naga on ebay.com, select the first entry, add it to the cart, then select checkout. Image 31: 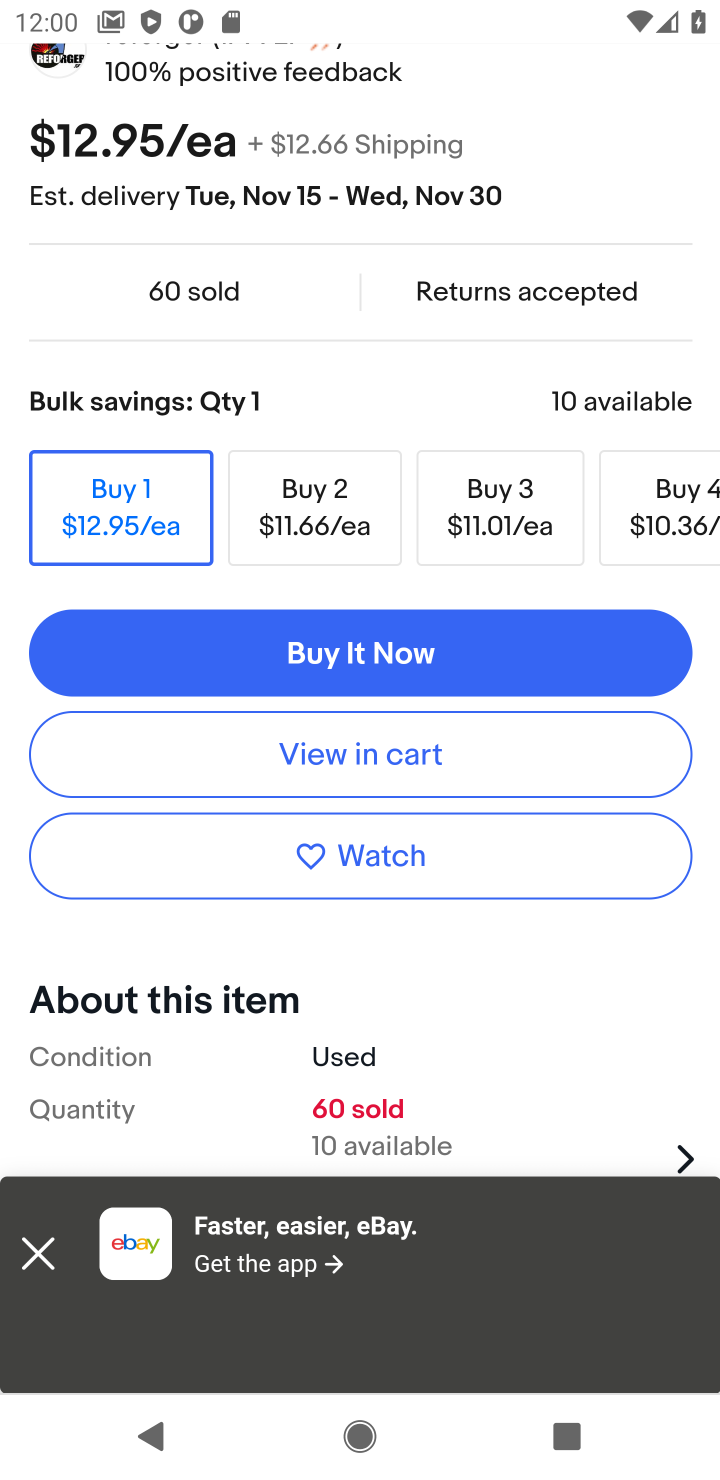
Step 31: click (381, 750)
Your task to perform on an android device: Show the shopping cart on ebay.com. Search for razer naga on ebay.com, select the first entry, add it to the cart, then select checkout. Image 32: 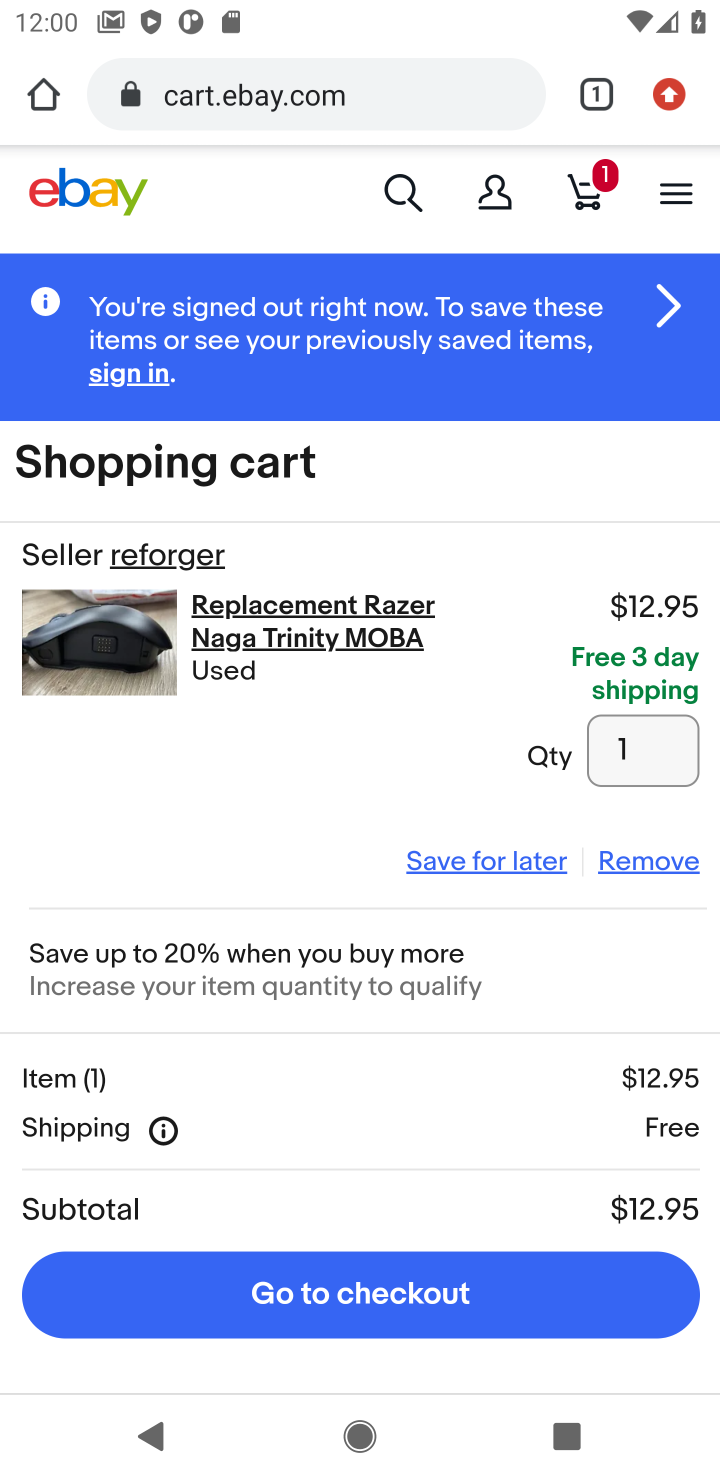
Step 32: click (469, 1295)
Your task to perform on an android device: Show the shopping cart on ebay.com. Search for razer naga on ebay.com, select the first entry, add it to the cart, then select checkout. Image 33: 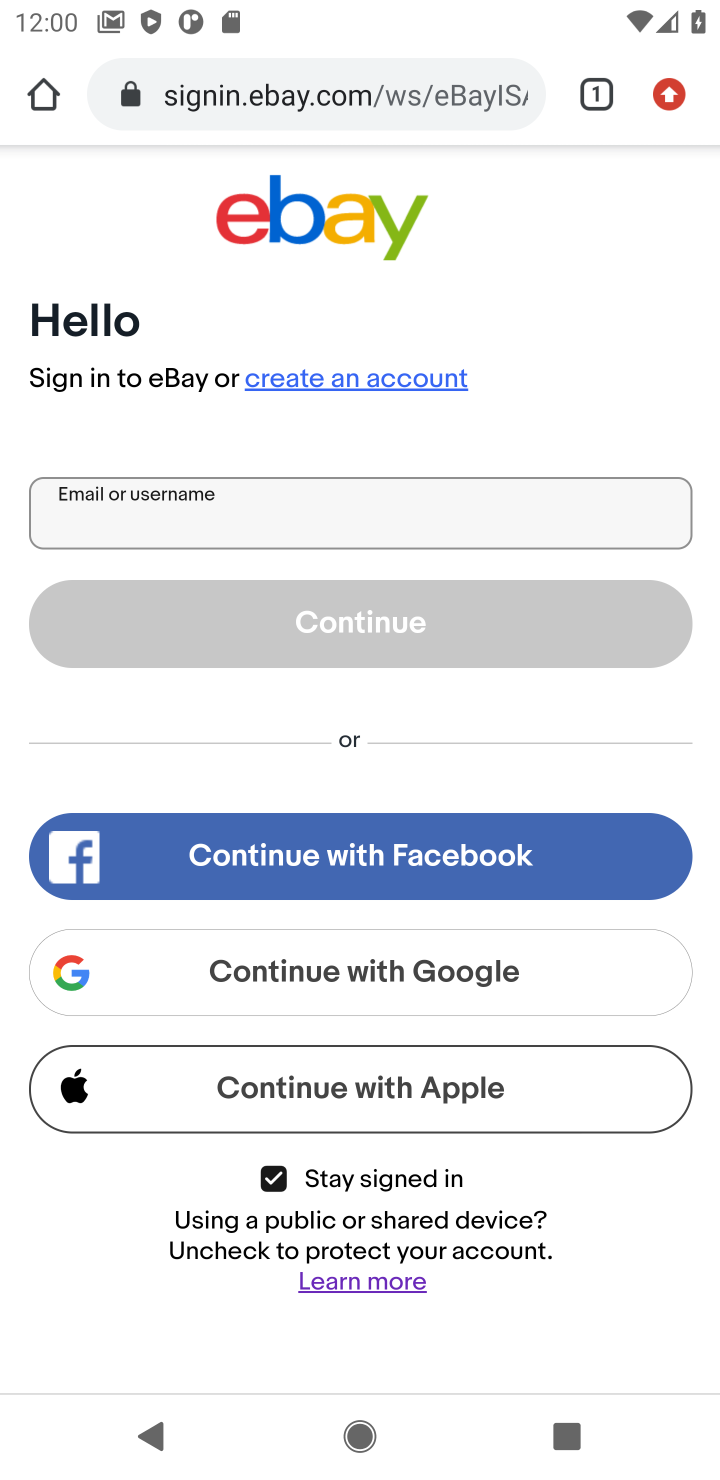
Step 33: task complete